Your task to perform on an android device: Open calendar and show me the third week of next month Image 0: 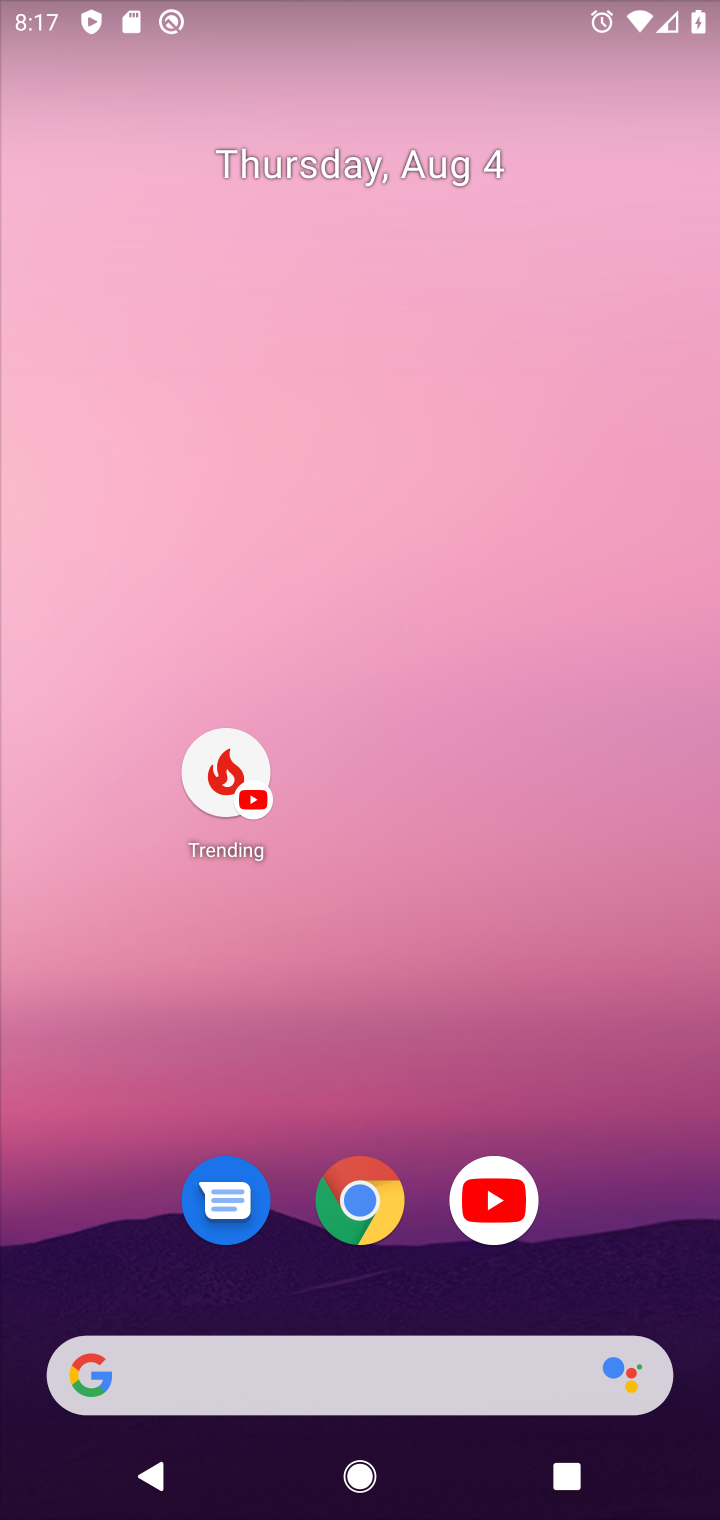
Step 0: drag from (414, 1419) to (105, 199)
Your task to perform on an android device: Open calendar and show me the third week of next month Image 1: 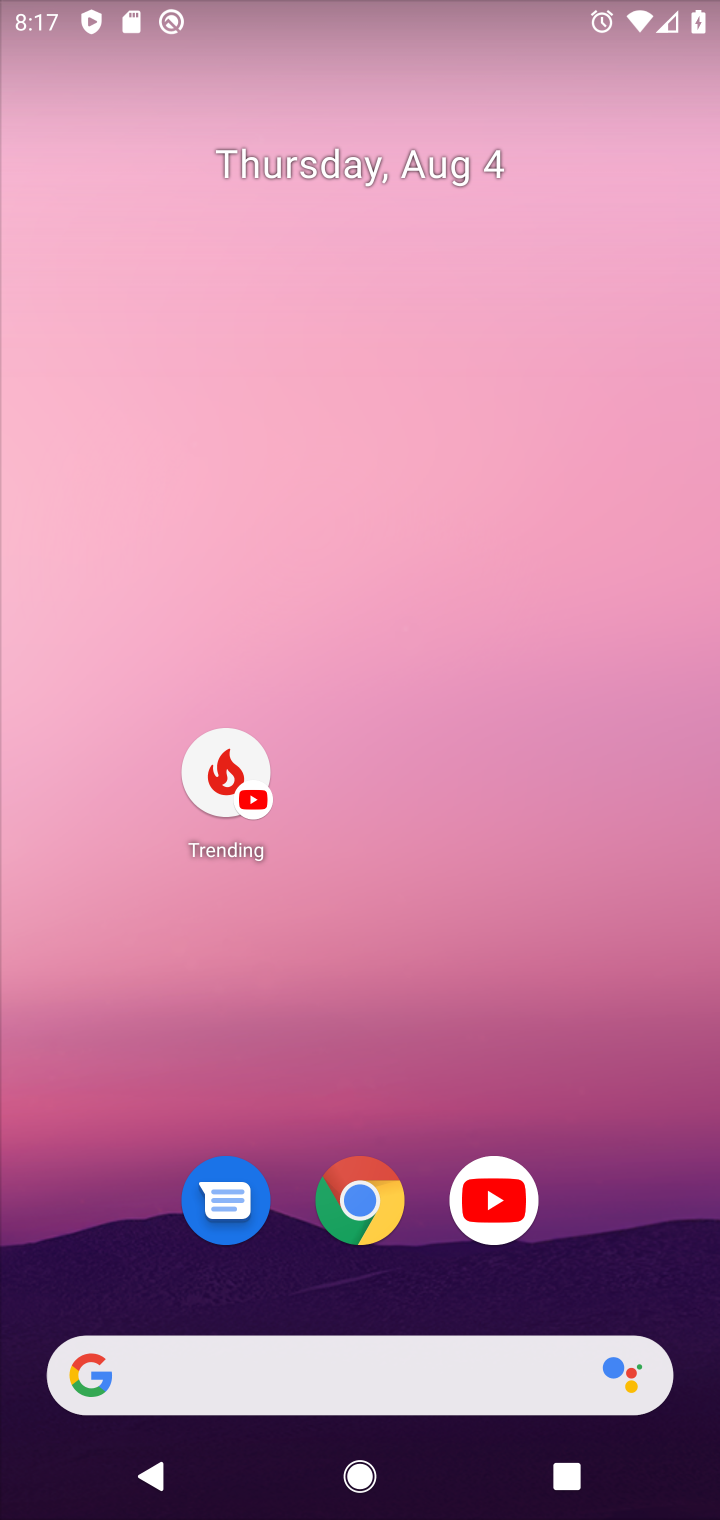
Step 1: drag from (387, 1021) to (305, 435)
Your task to perform on an android device: Open calendar and show me the third week of next month Image 2: 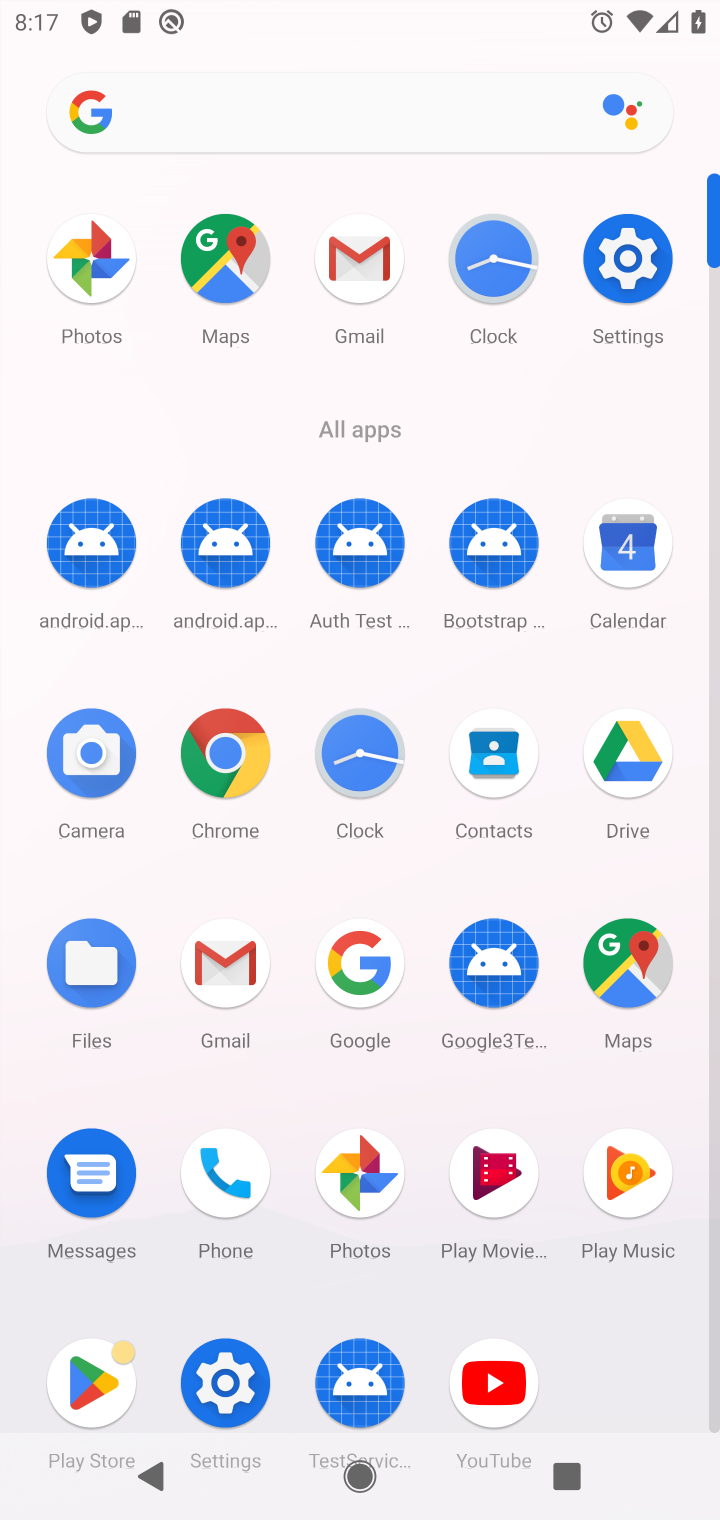
Step 2: click (622, 574)
Your task to perform on an android device: Open calendar and show me the third week of next month Image 3: 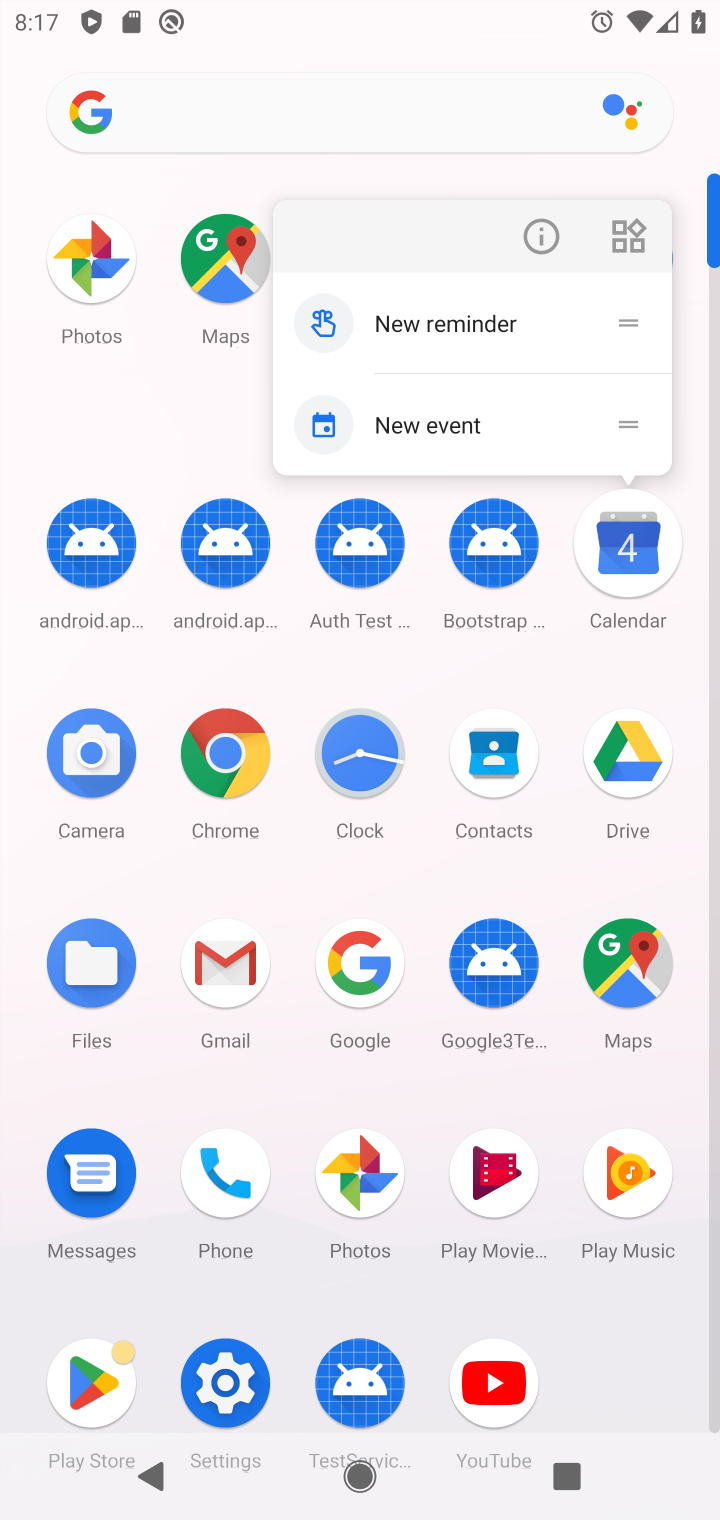
Step 3: click (624, 566)
Your task to perform on an android device: Open calendar and show me the third week of next month Image 4: 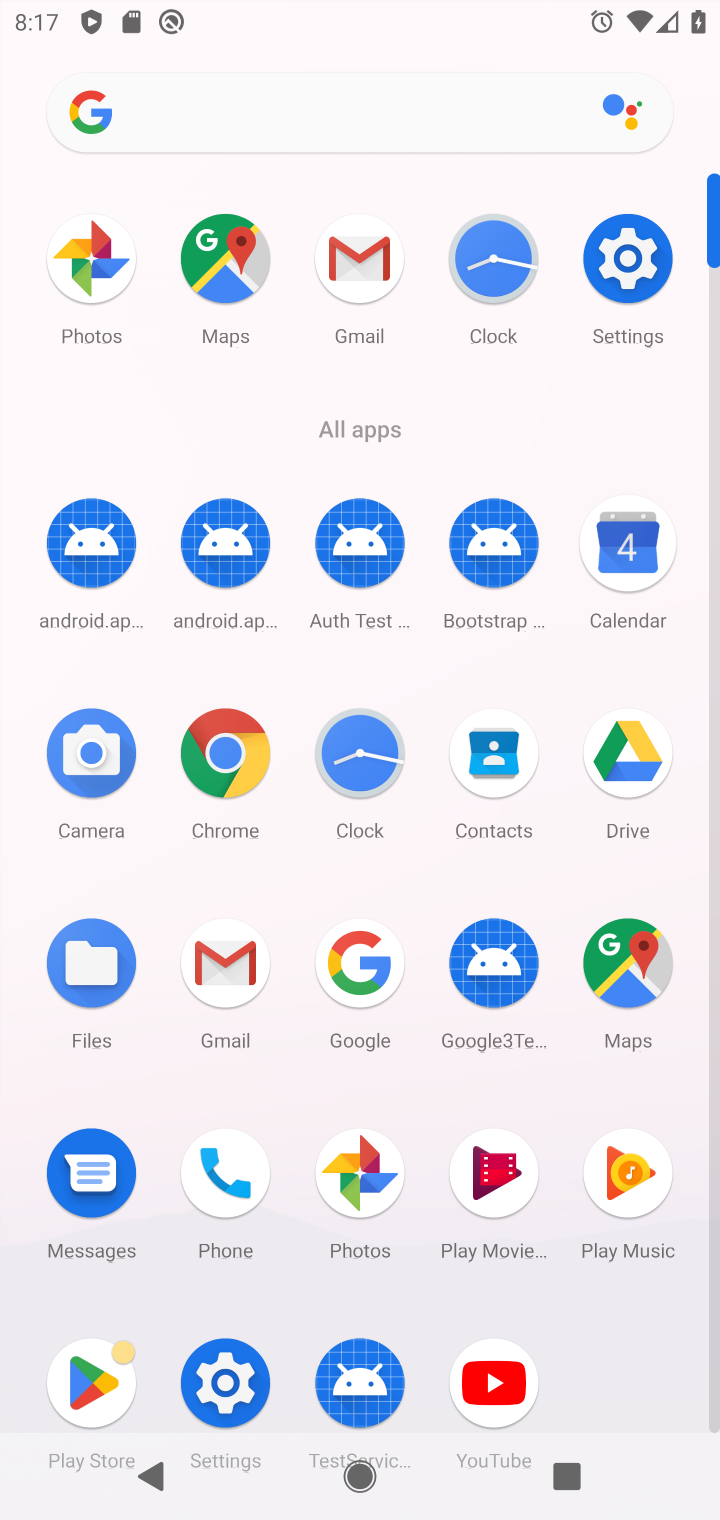
Step 4: click (414, 413)
Your task to perform on an android device: Open calendar and show me the third week of next month Image 5: 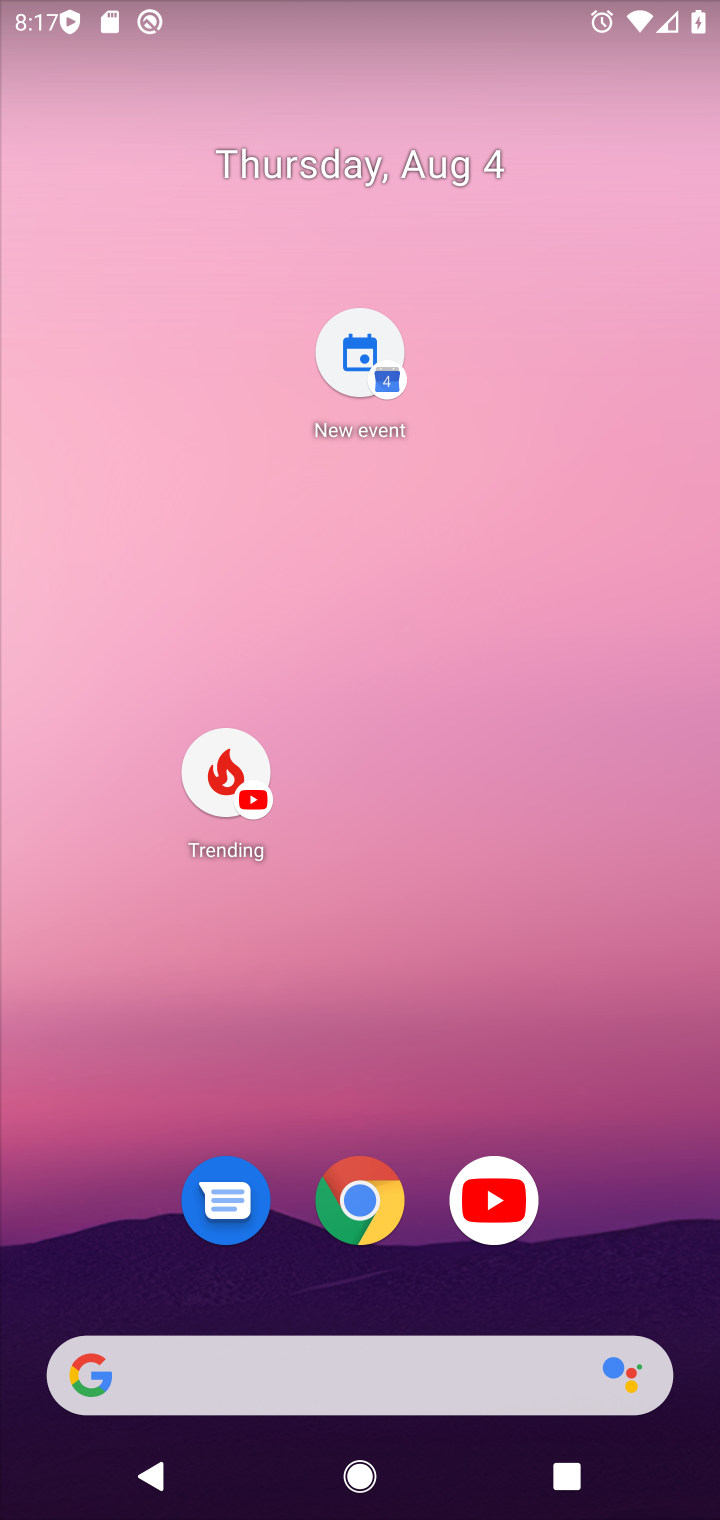
Step 5: click (44, 384)
Your task to perform on an android device: Open calendar and show me the third week of next month Image 6: 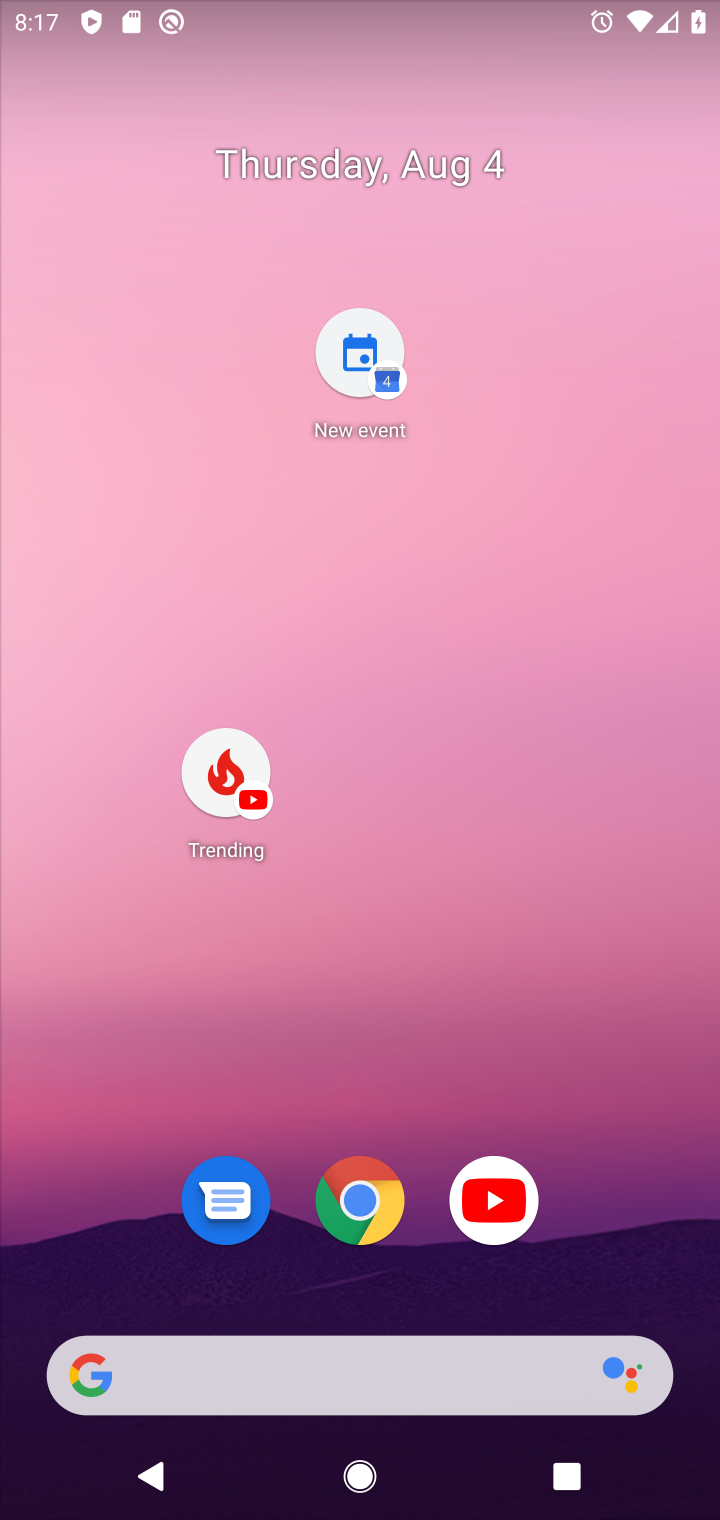
Step 6: click (459, 555)
Your task to perform on an android device: Open calendar and show me the third week of next month Image 7: 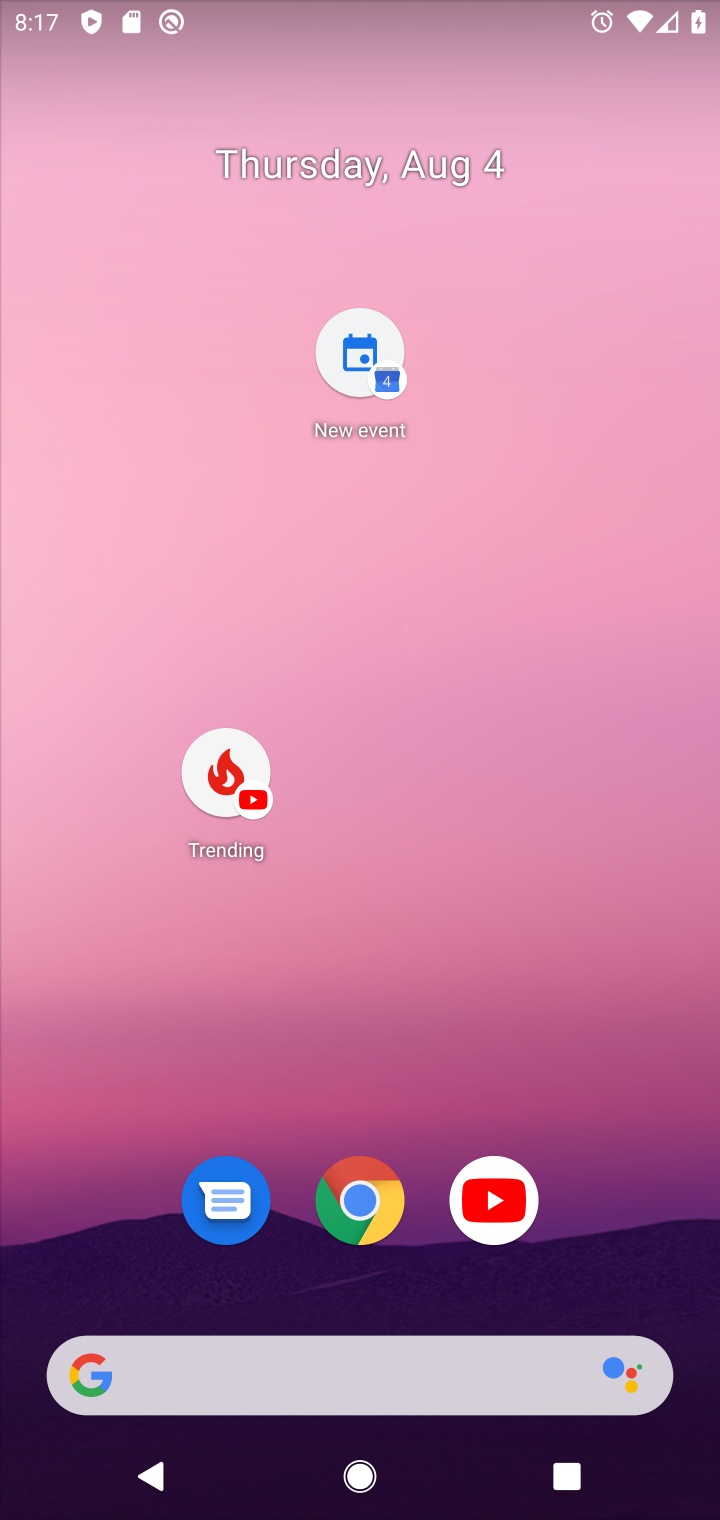
Step 7: drag from (462, 1073) to (316, 195)
Your task to perform on an android device: Open calendar and show me the third week of next month Image 8: 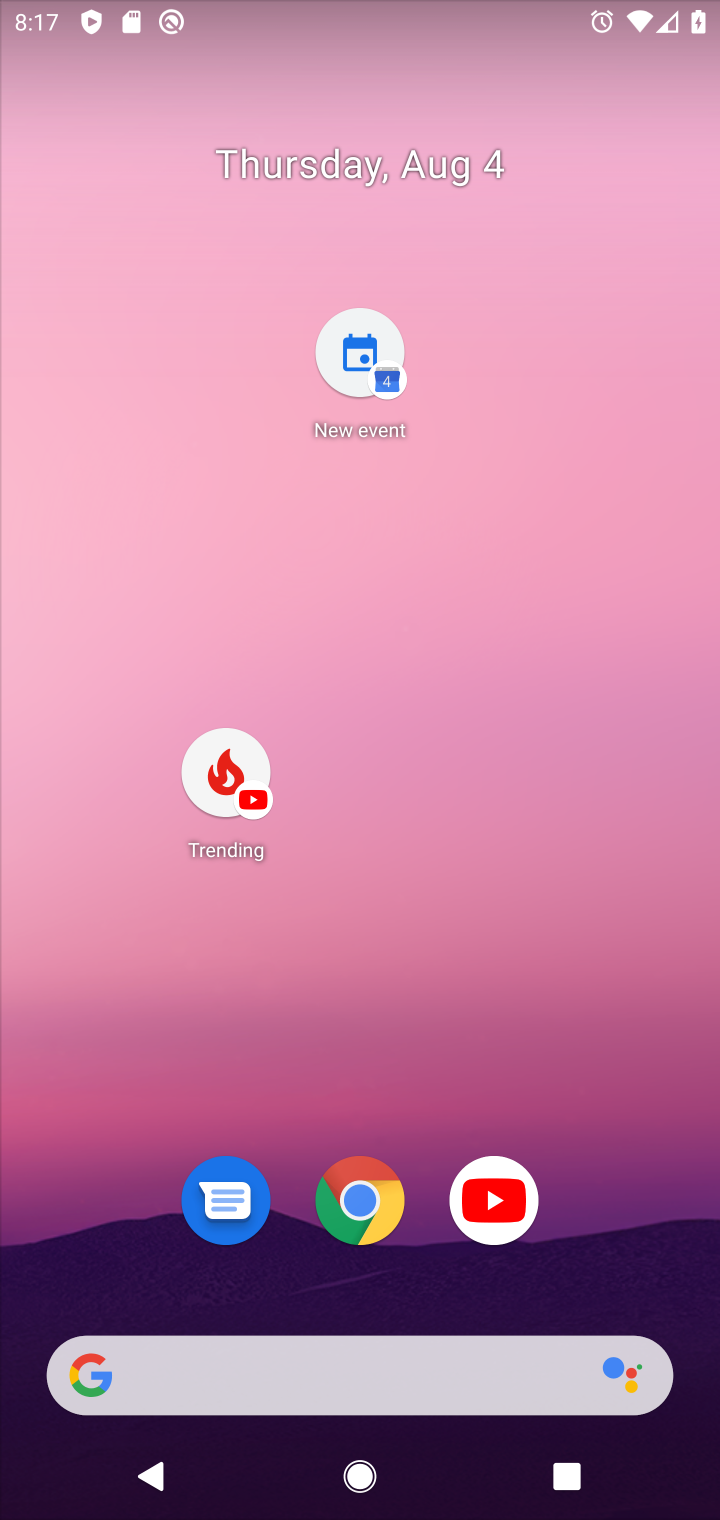
Step 8: drag from (372, 174) to (195, 298)
Your task to perform on an android device: Open calendar and show me the third week of next month Image 9: 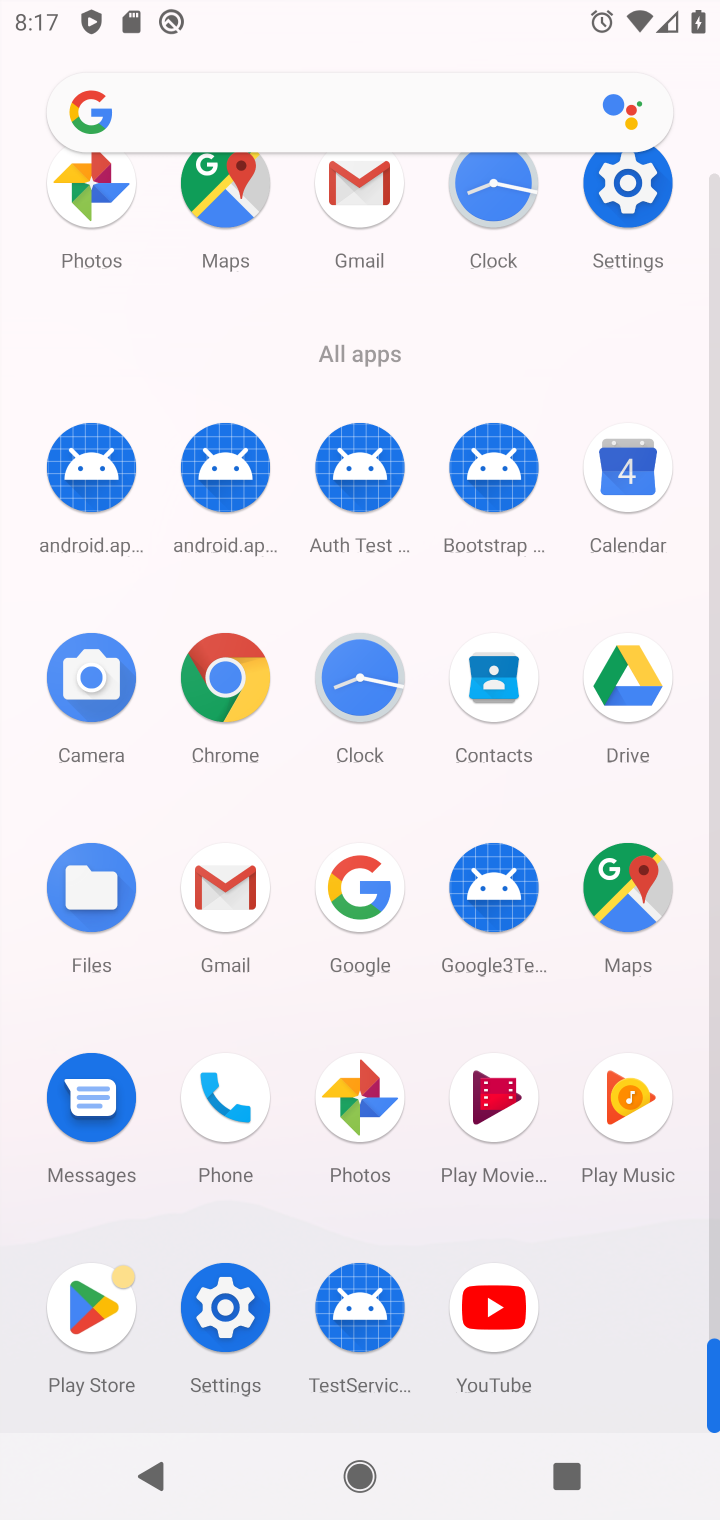
Step 9: click (626, 466)
Your task to perform on an android device: Open calendar and show me the third week of next month Image 10: 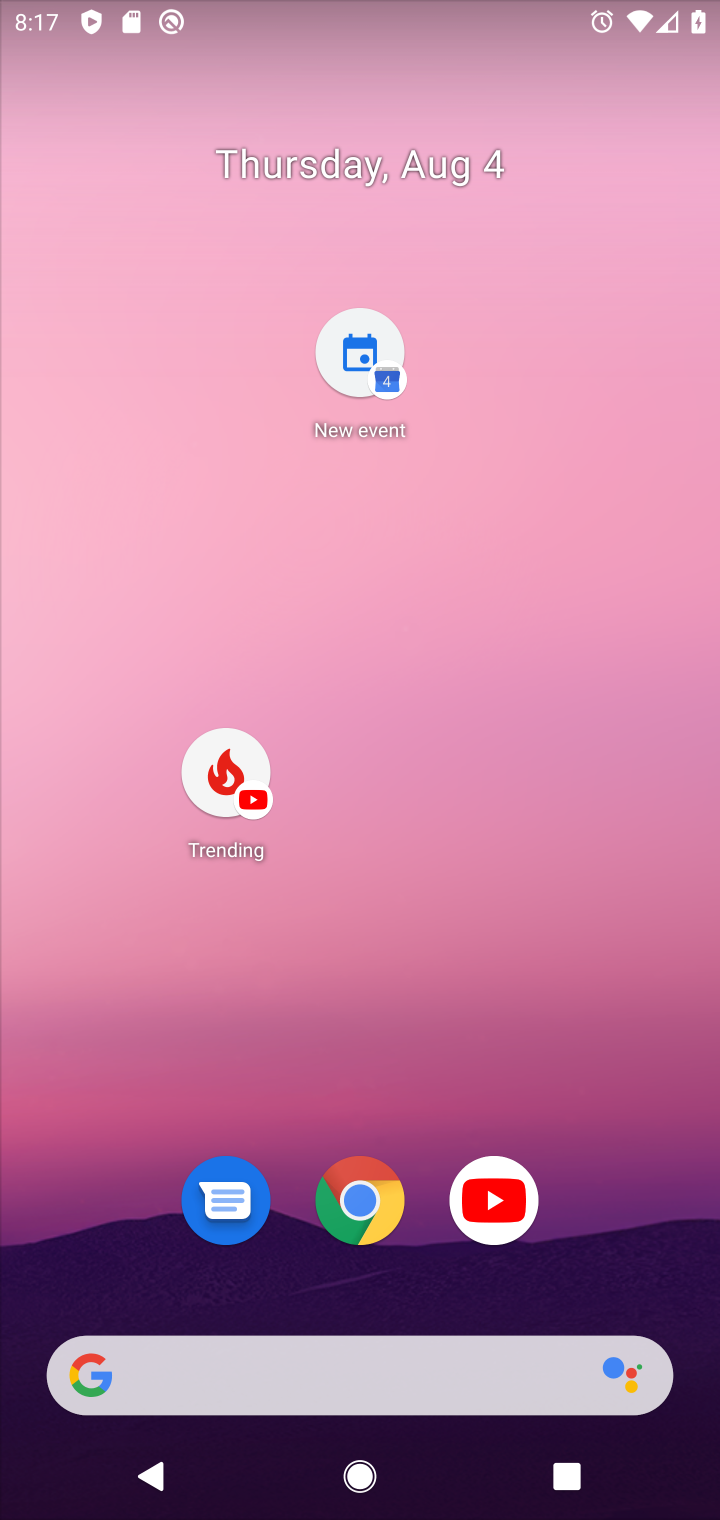
Step 10: click (639, 471)
Your task to perform on an android device: Open calendar and show me the third week of next month Image 11: 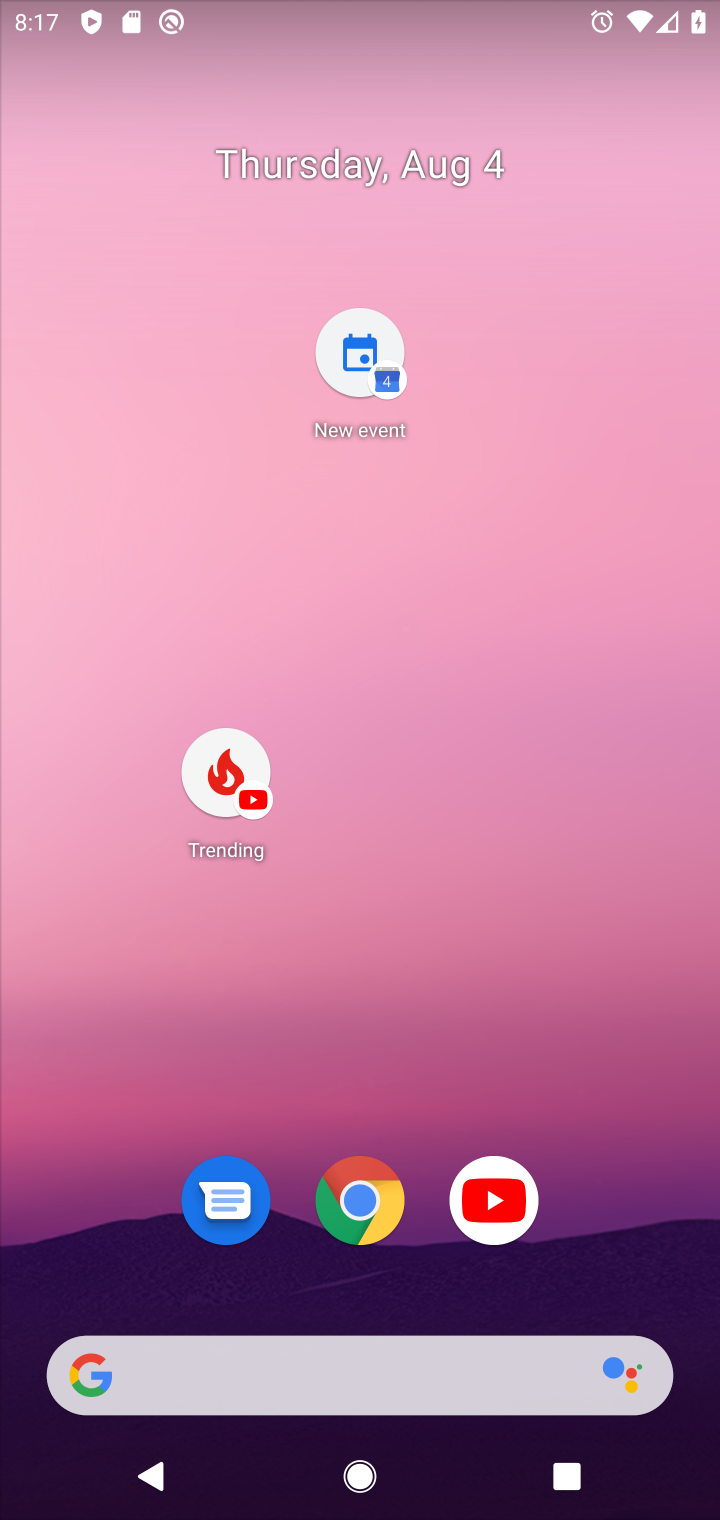
Step 11: drag from (124, 19) to (435, 383)
Your task to perform on an android device: Open calendar and show me the third week of next month Image 12: 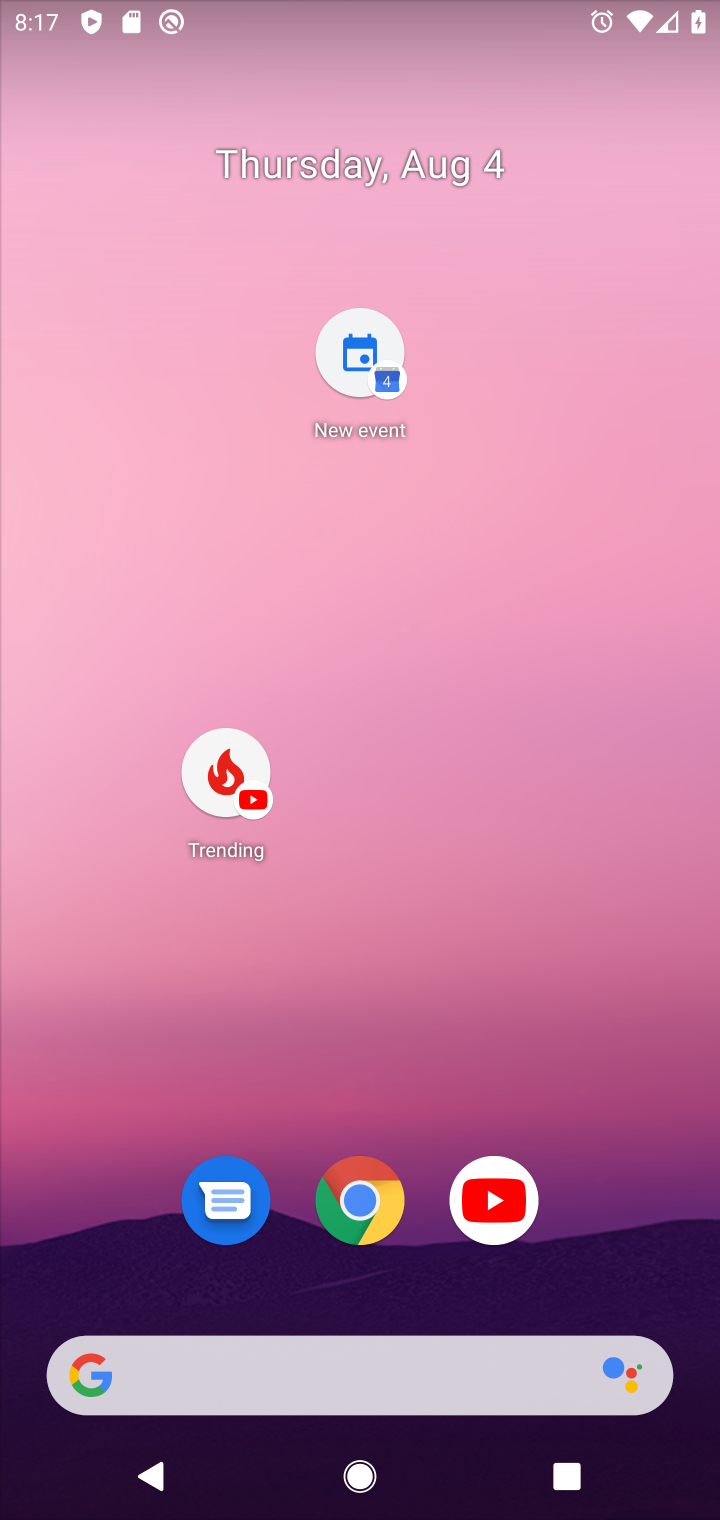
Step 12: drag from (391, 959) to (210, 210)
Your task to perform on an android device: Open calendar and show me the third week of next month Image 13: 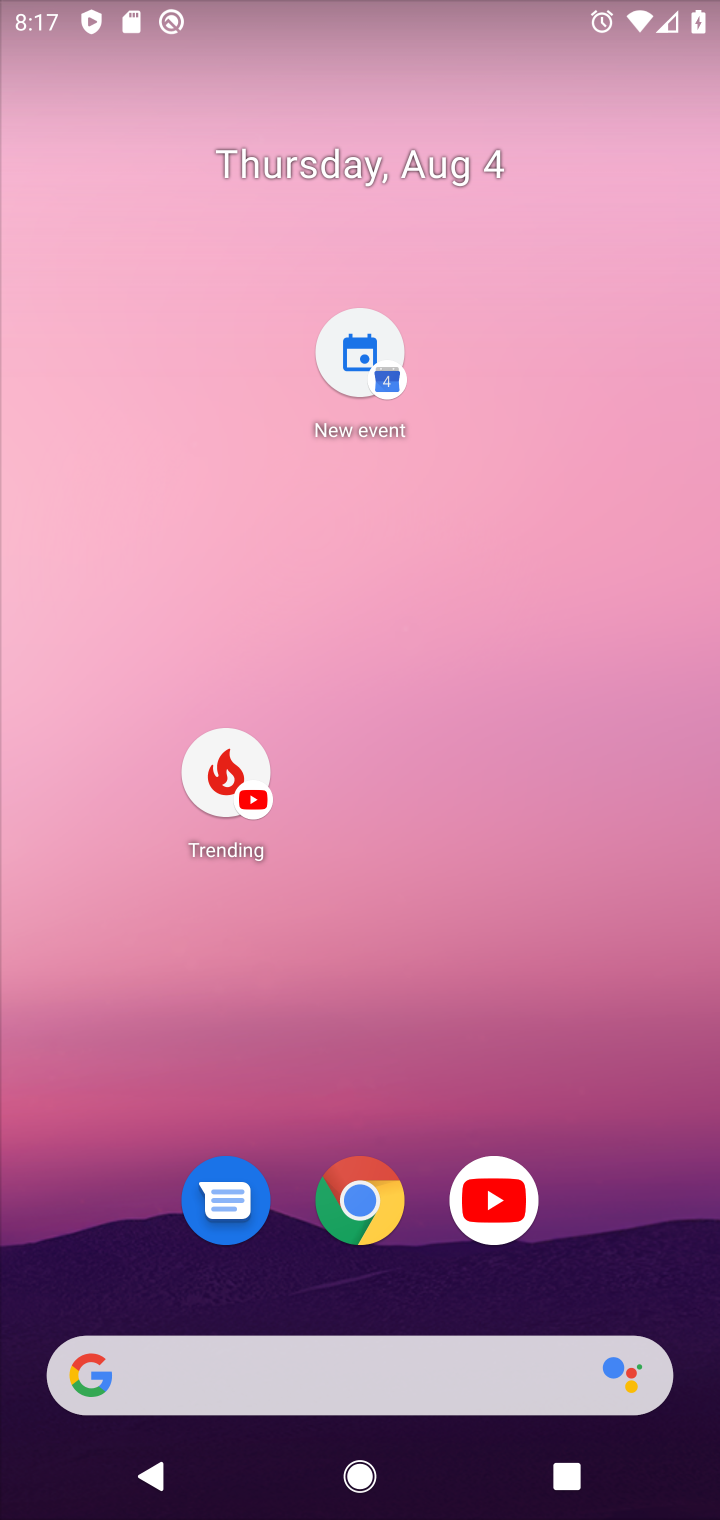
Step 13: click (299, 561)
Your task to perform on an android device: Open calendar and show me the third week of next month Image 14: 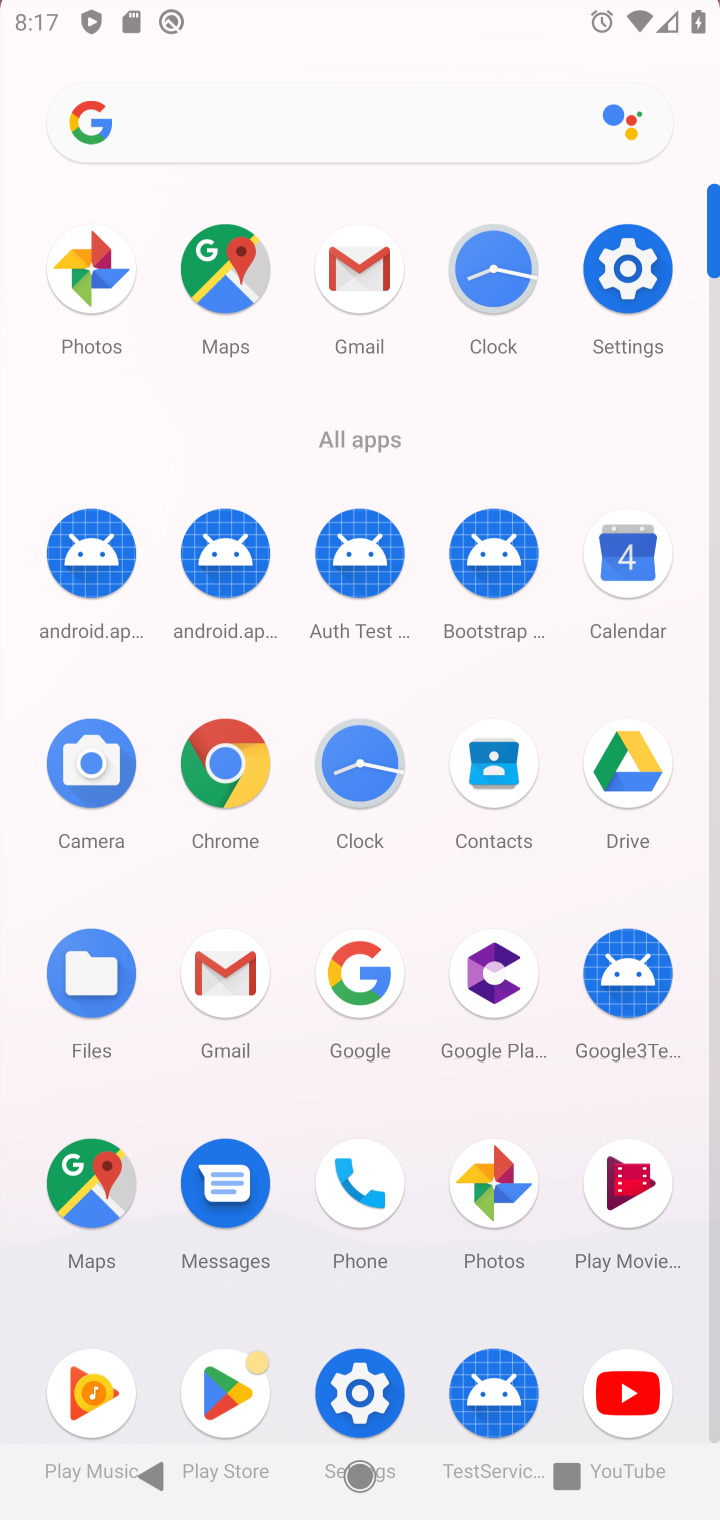
Step 14: drag from (356, 997) to (262, 313)
Your task to perform on an android device: Open calendar and show me the third week of next month Image 15: 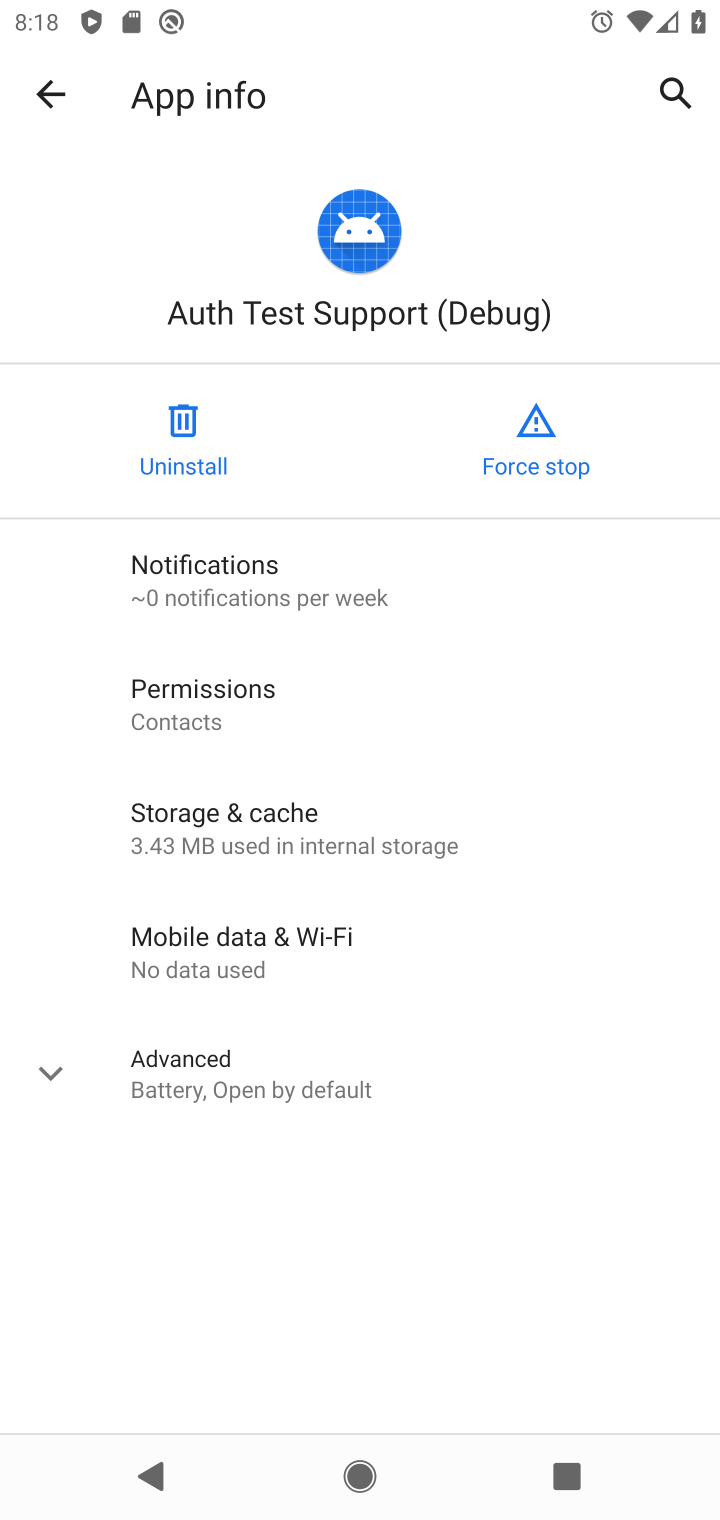
Step 15: click (52, 98)
Your task to perform on an android device: Open calendar and show me the third week of next month Image 16: 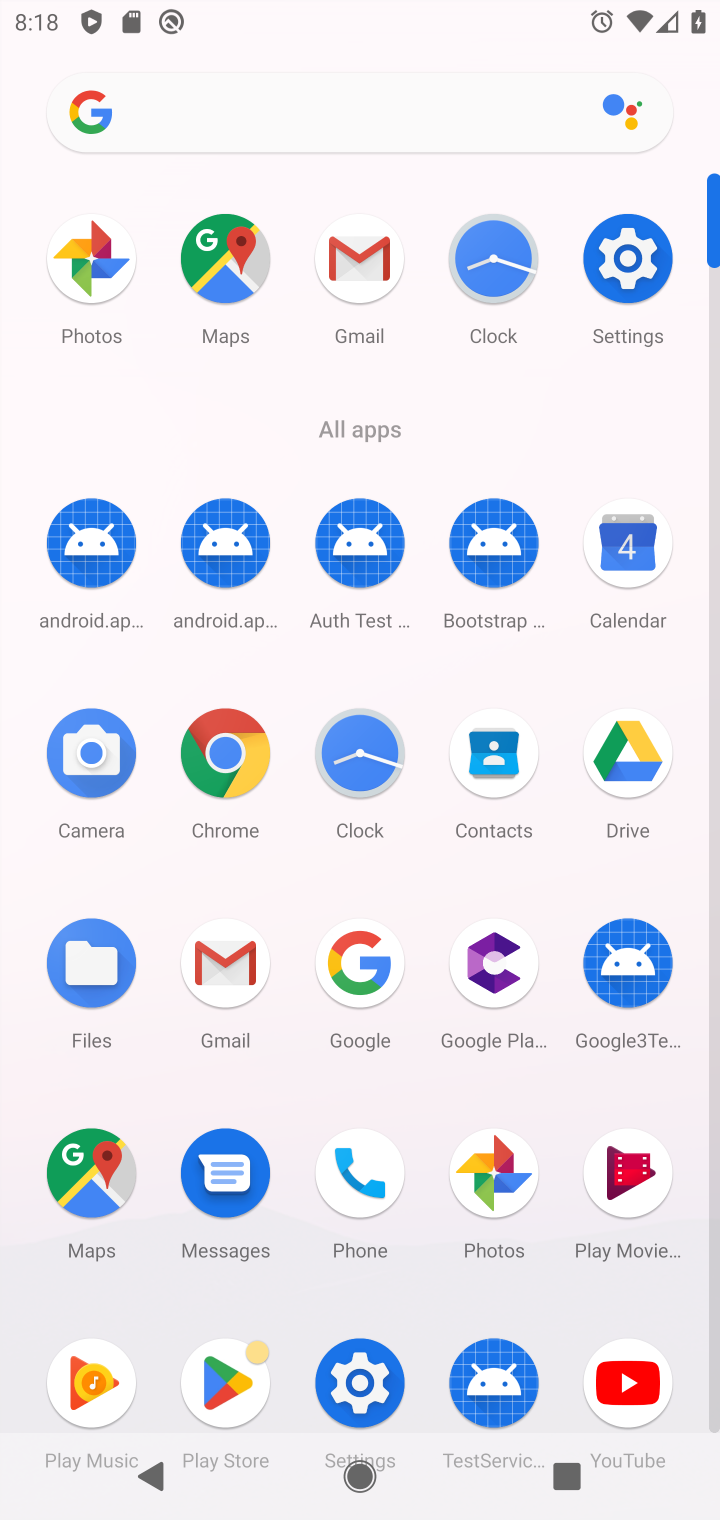
Step 16: click (617, 251)
Your task to perform on an android device: Open calendar and show me the third week of next month Image 17: 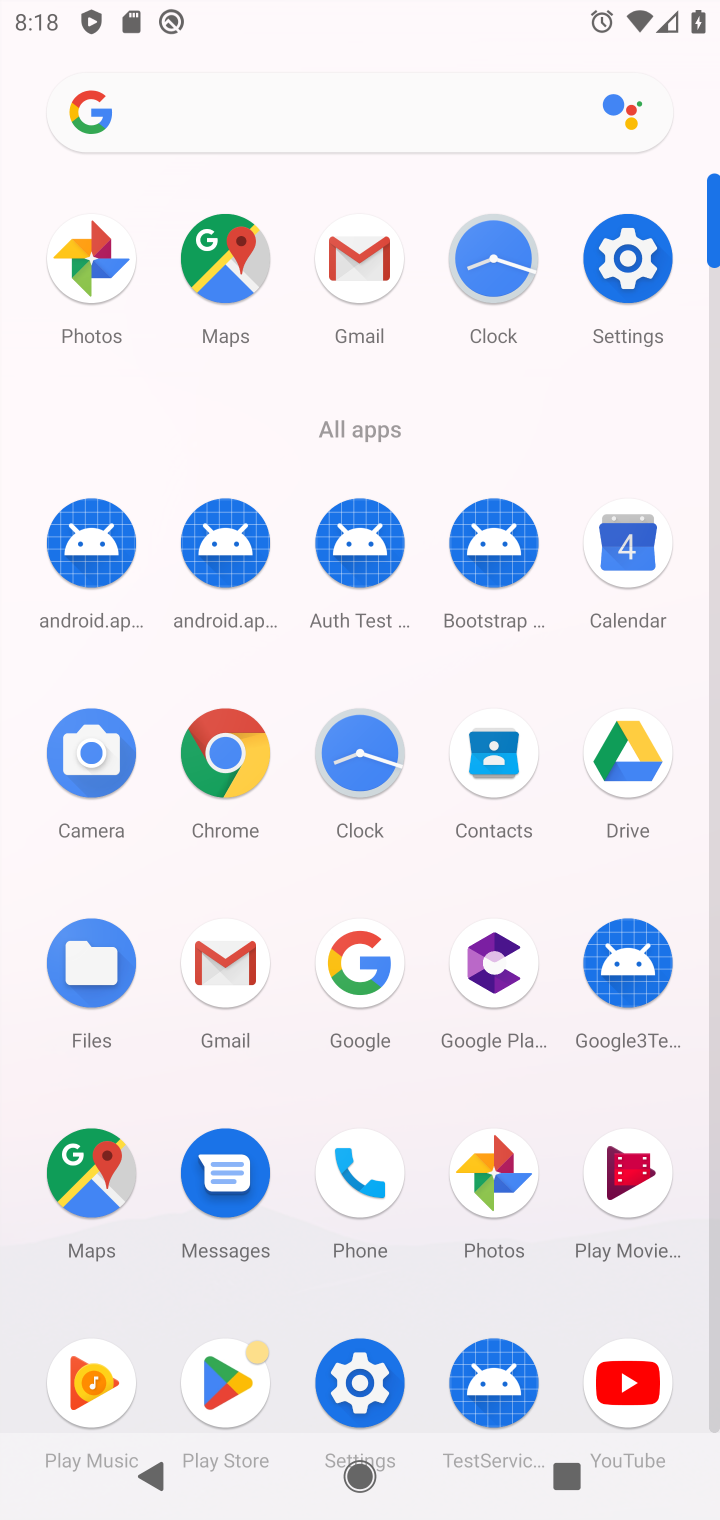
Step 17: click (617, 251)
Your task to perform on an android device: Open calendar and show me the third week of next month Image 18: 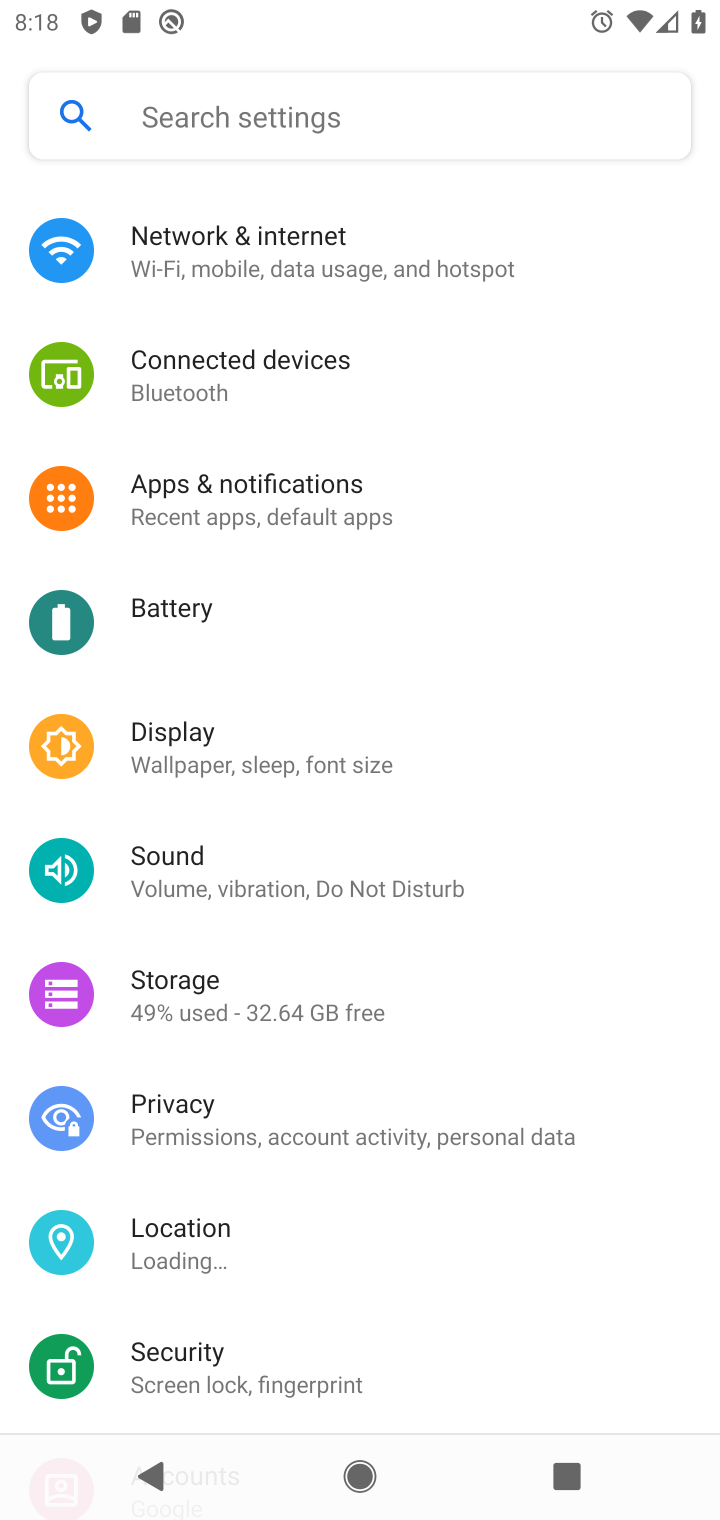
Step 18: press back button
Your task to perform on an android device: Open calendar and show me the third week of next month Image 19: 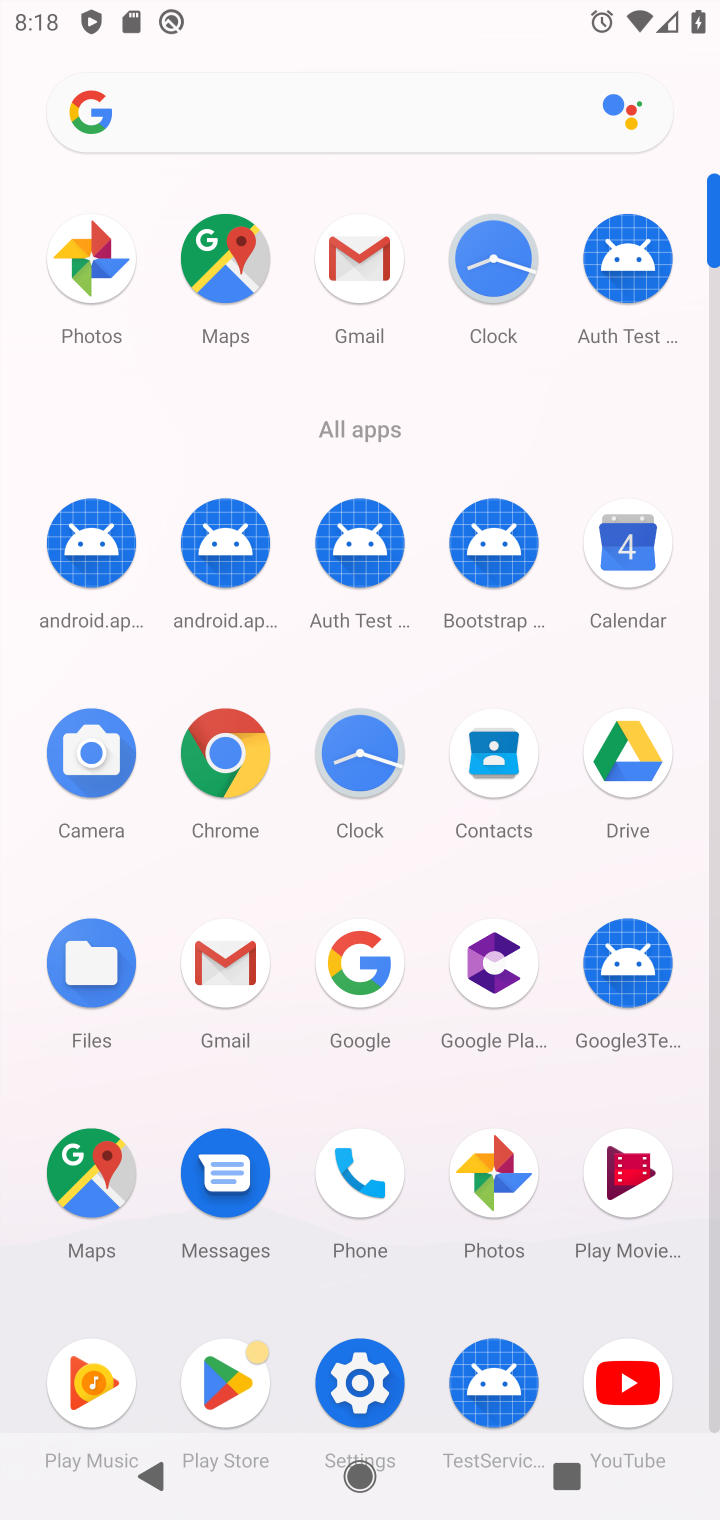
Step 19: click (624, 550)
Your task to perform on an android device: Open calendar and show me the third week of next month Image 20: 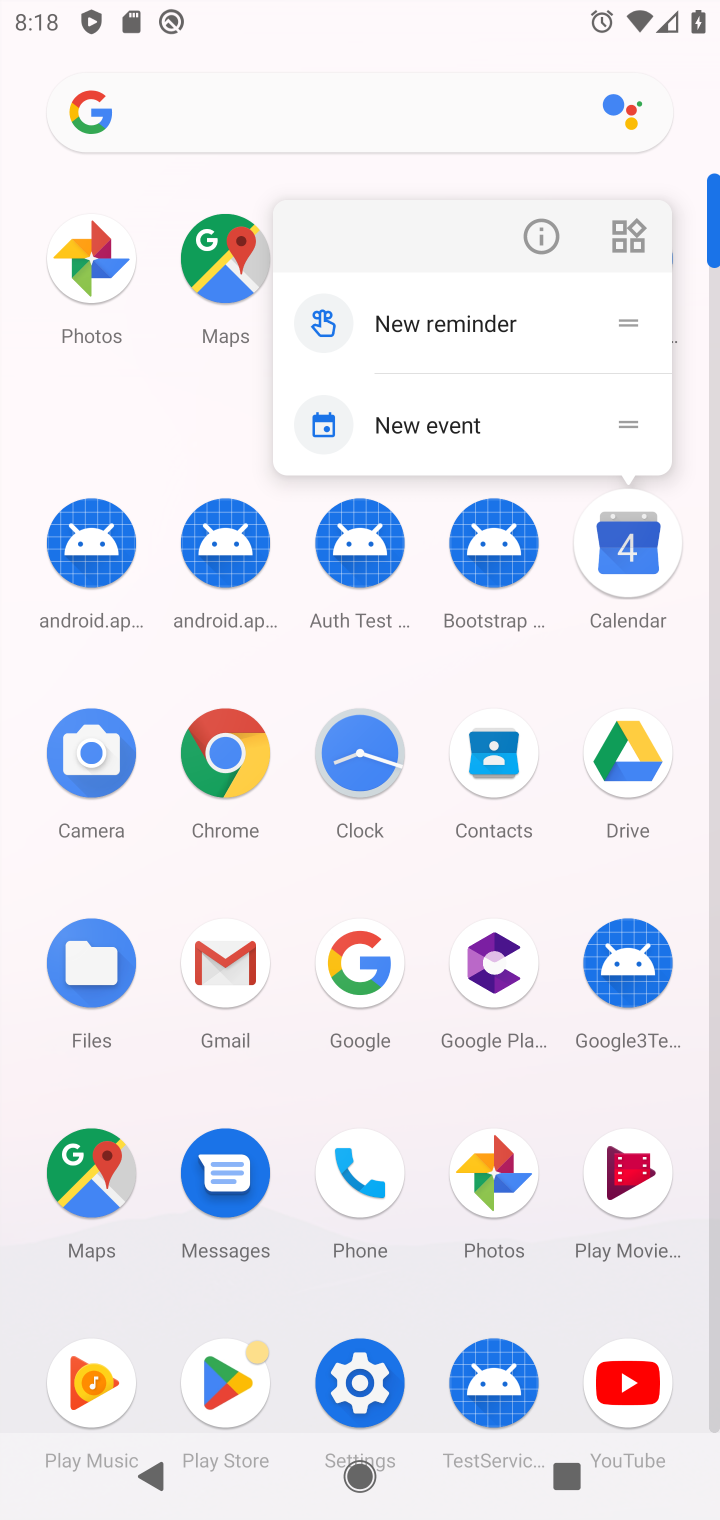
Step 20: click (622, 549)
Your task to perform on an android device: Open calendar and show me the third week of next month Image 21: 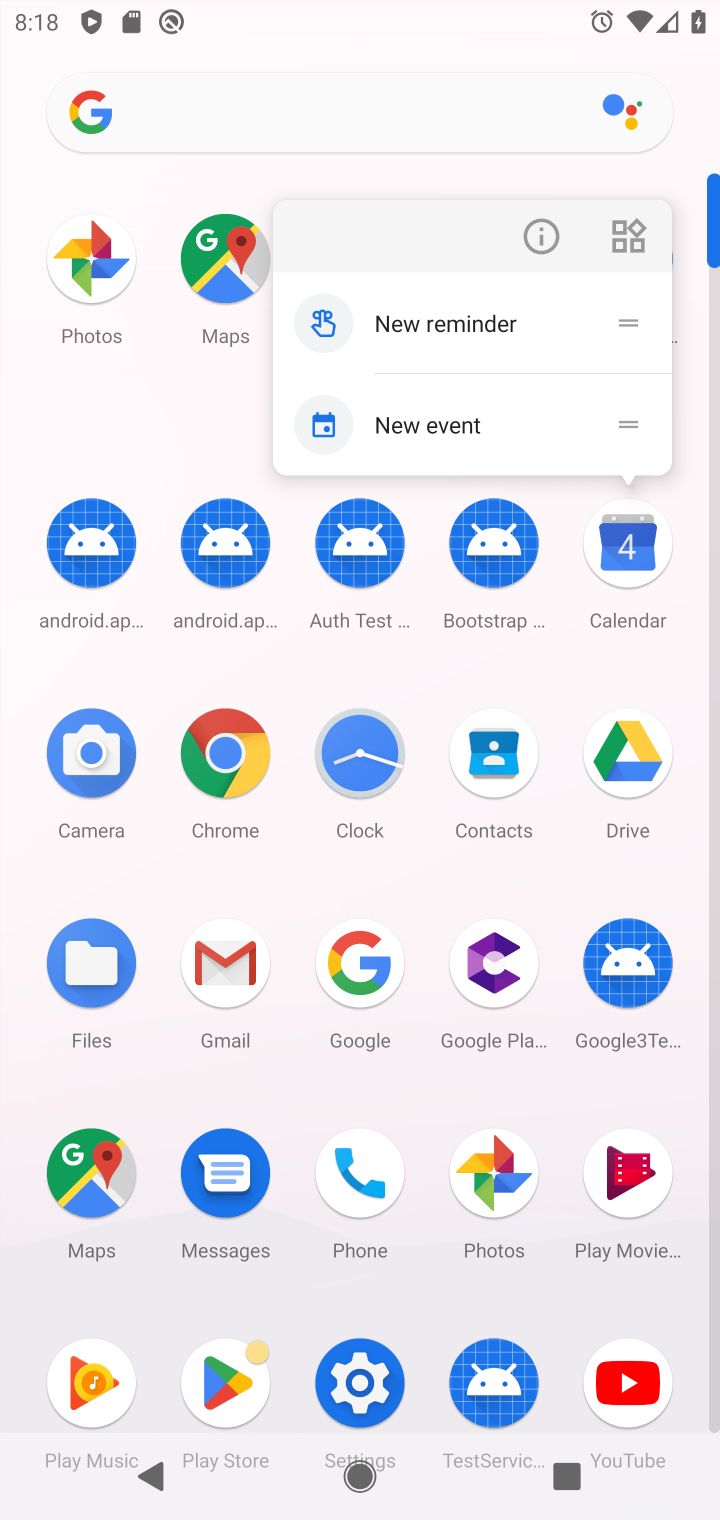
Step 21: click (442, 425)
Your task to perform on an android device: Open calendar and show me the third week of next month Image 22: 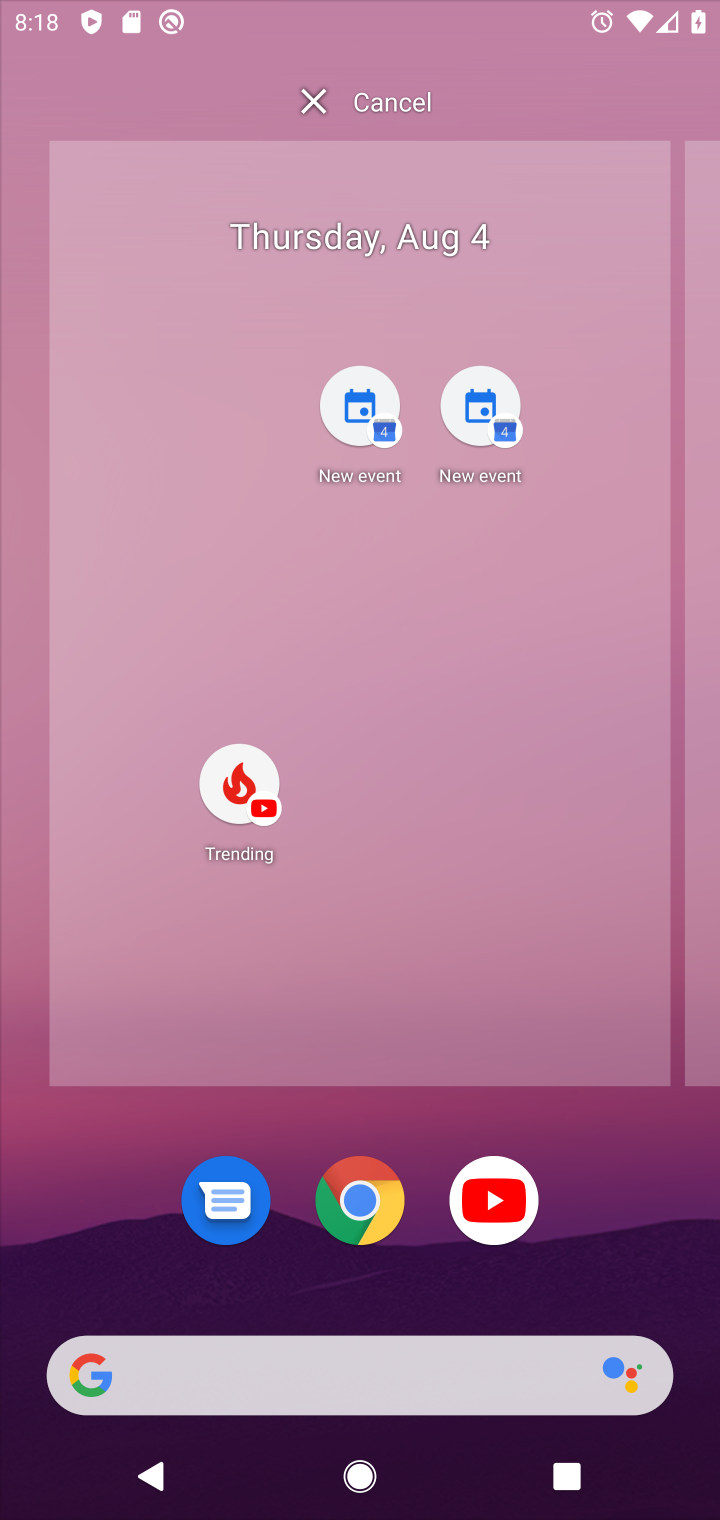
Step 22: drag from (457, 1121) to (440, 166)
Your task to perform on an android device: Open calendar and show me the third week of next month Image 23: 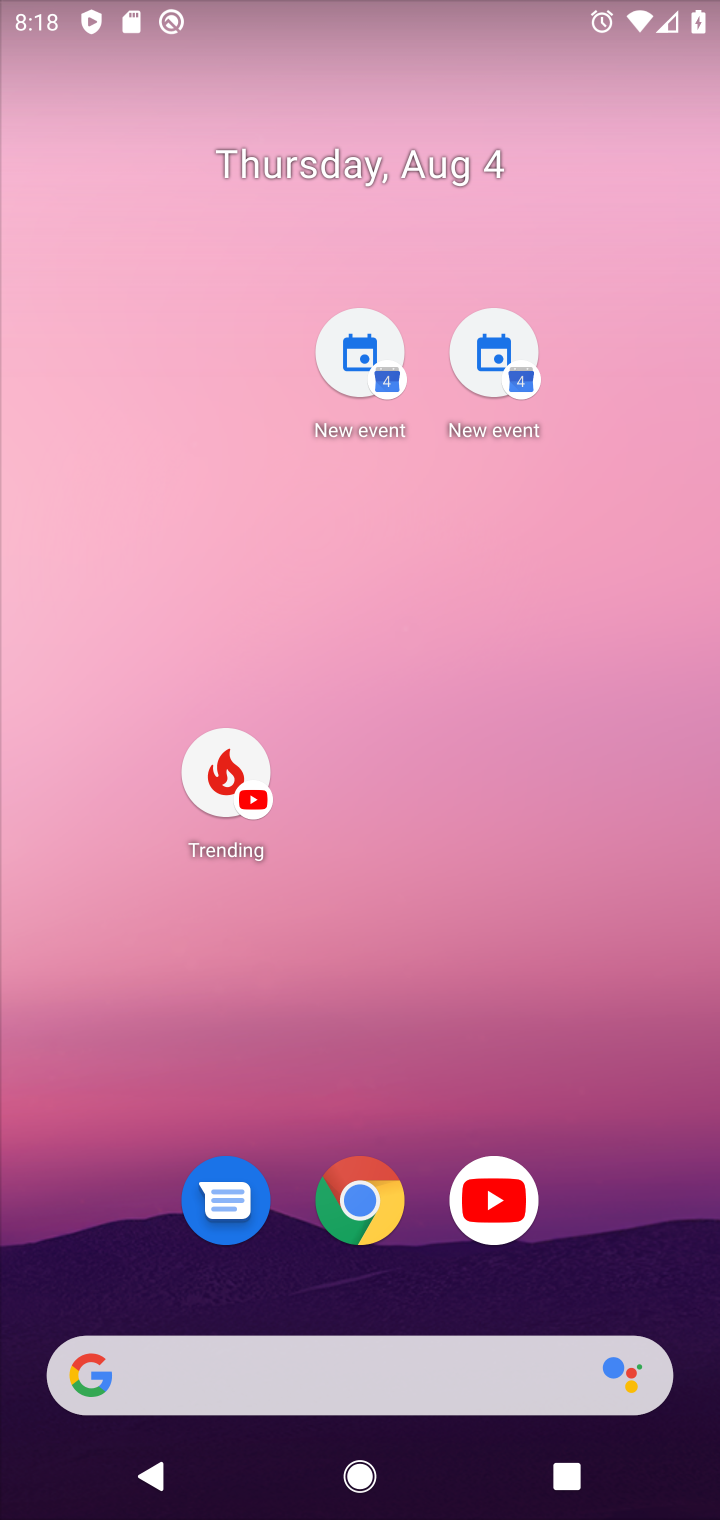
Step 23: drag from (450, 464) to (450, 126)
Your task to perform on an android device: Open calendar and show me the third week of next month Image 24: 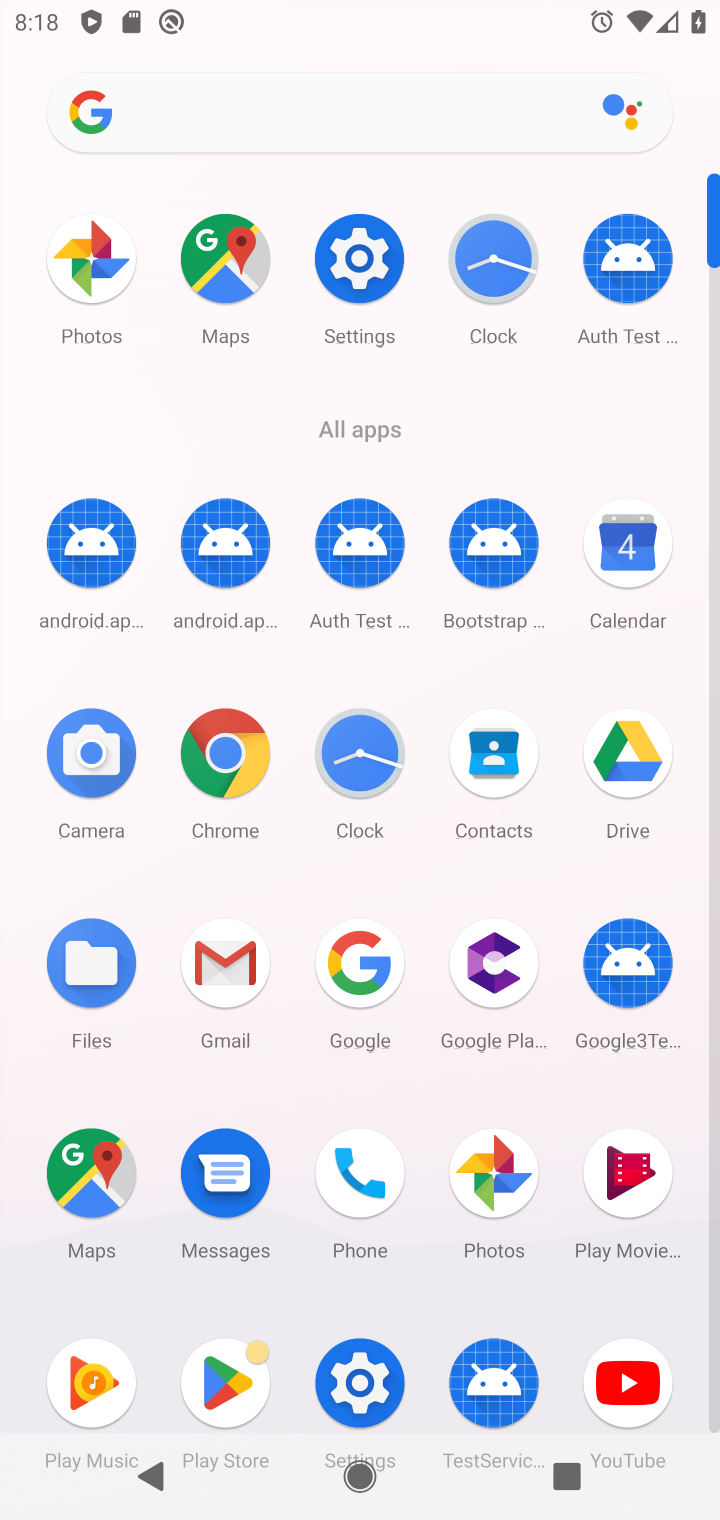
Step 24: click (495, 366)
Your task to perform on an android device: Open calendar and show me the third week of next month Image 25: 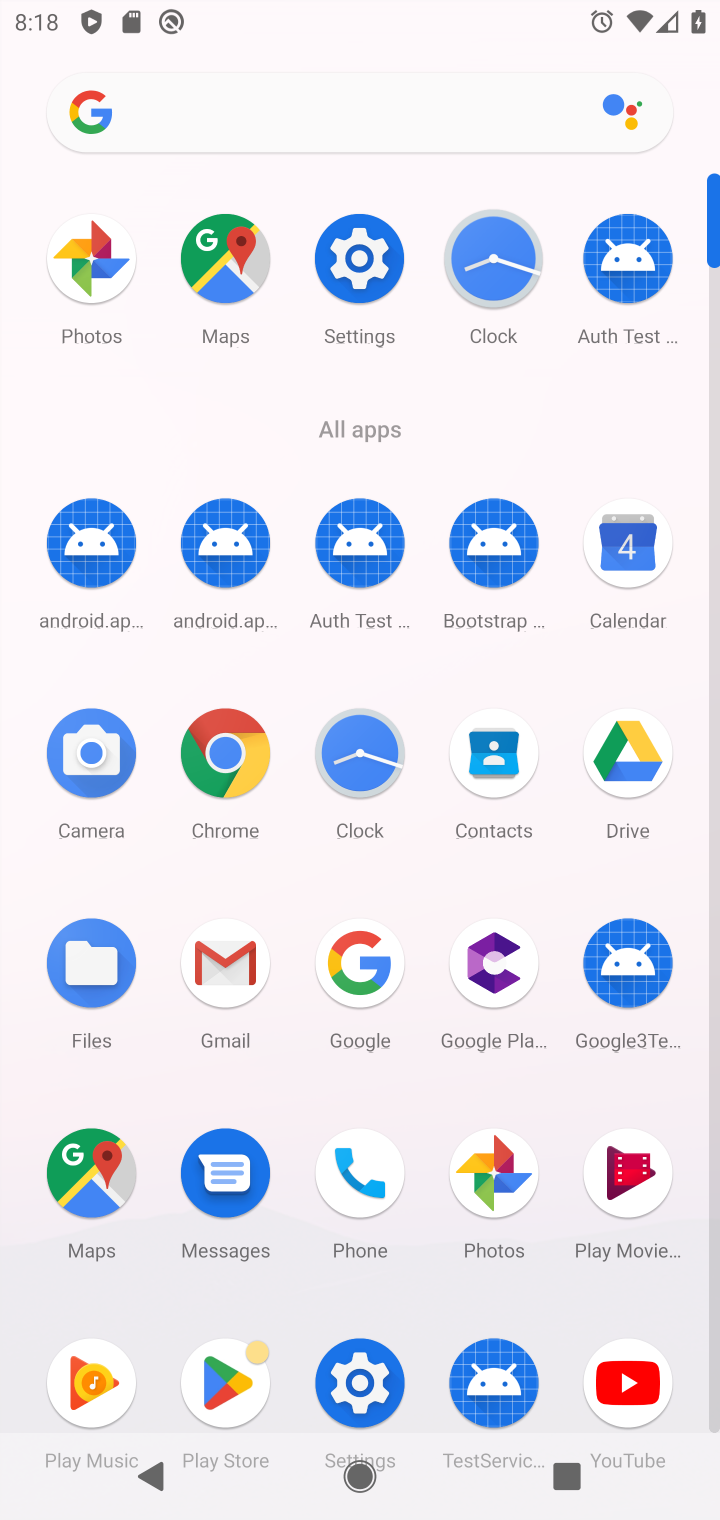
Step 25: click (636, 537)
Your task to perform on an android device: Open calendar and show me the third week of next month Image 26: 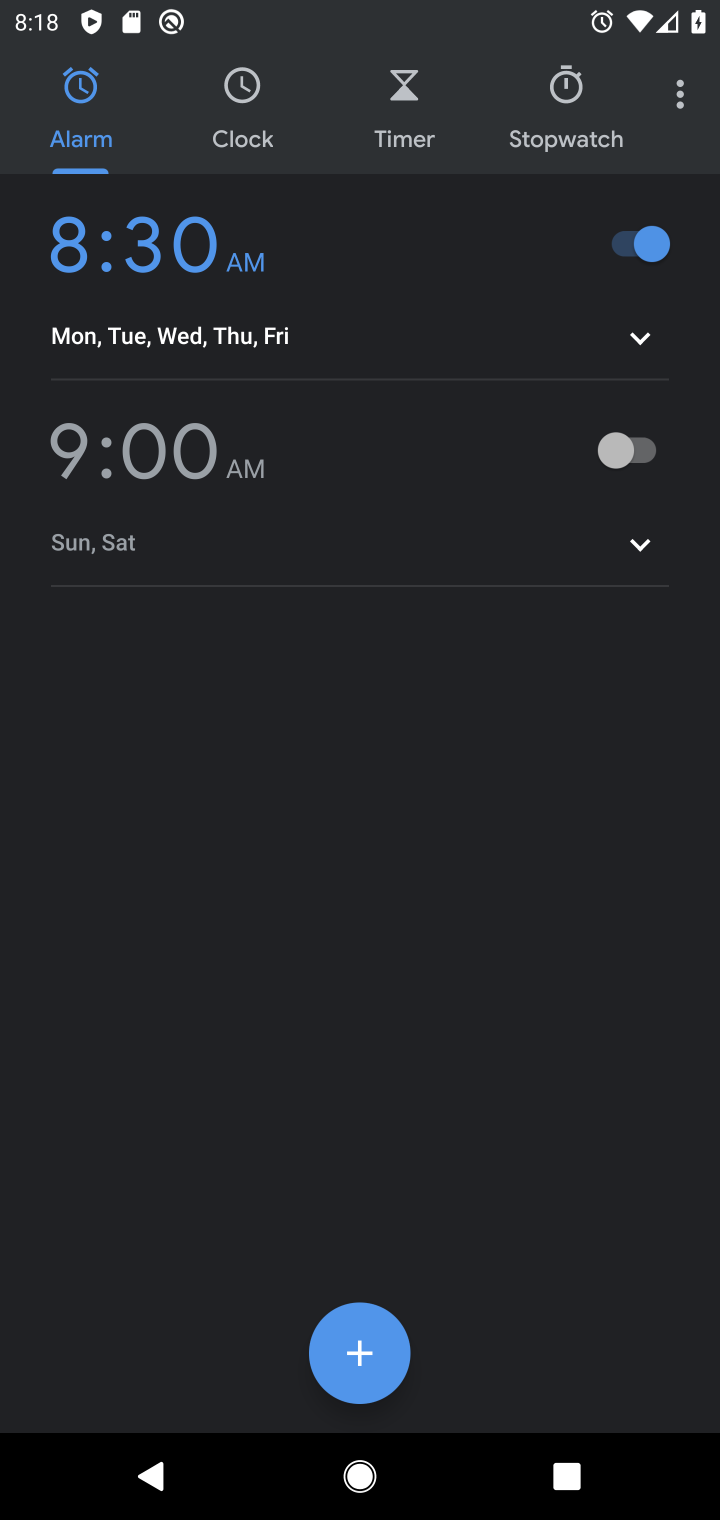
Step 26: press back button
Your task to perform on an android device: Open calendar and show me the third week of next month Image 27: 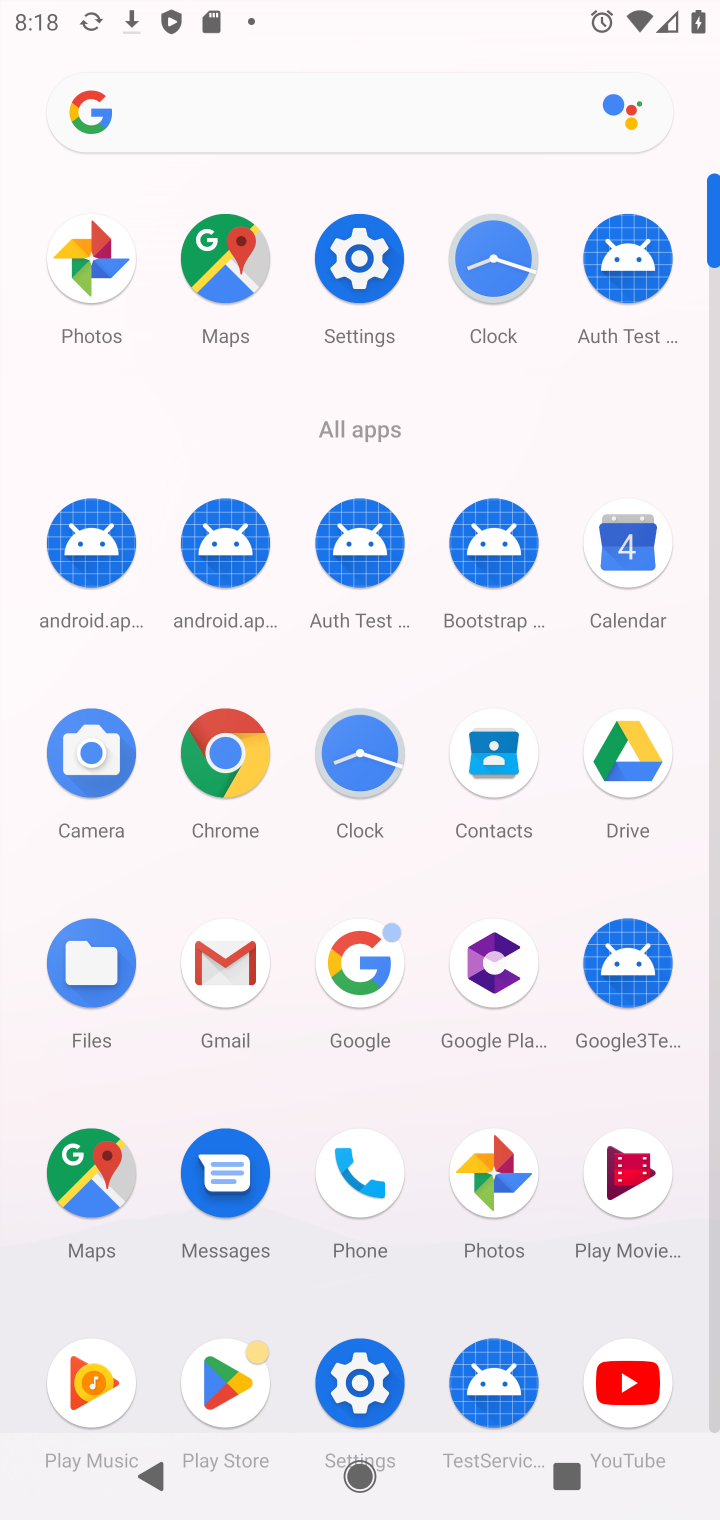
Step 27: click (633, 561)
Your task to perform on an android device: Open calendar and show me the third week of next month Image 28: 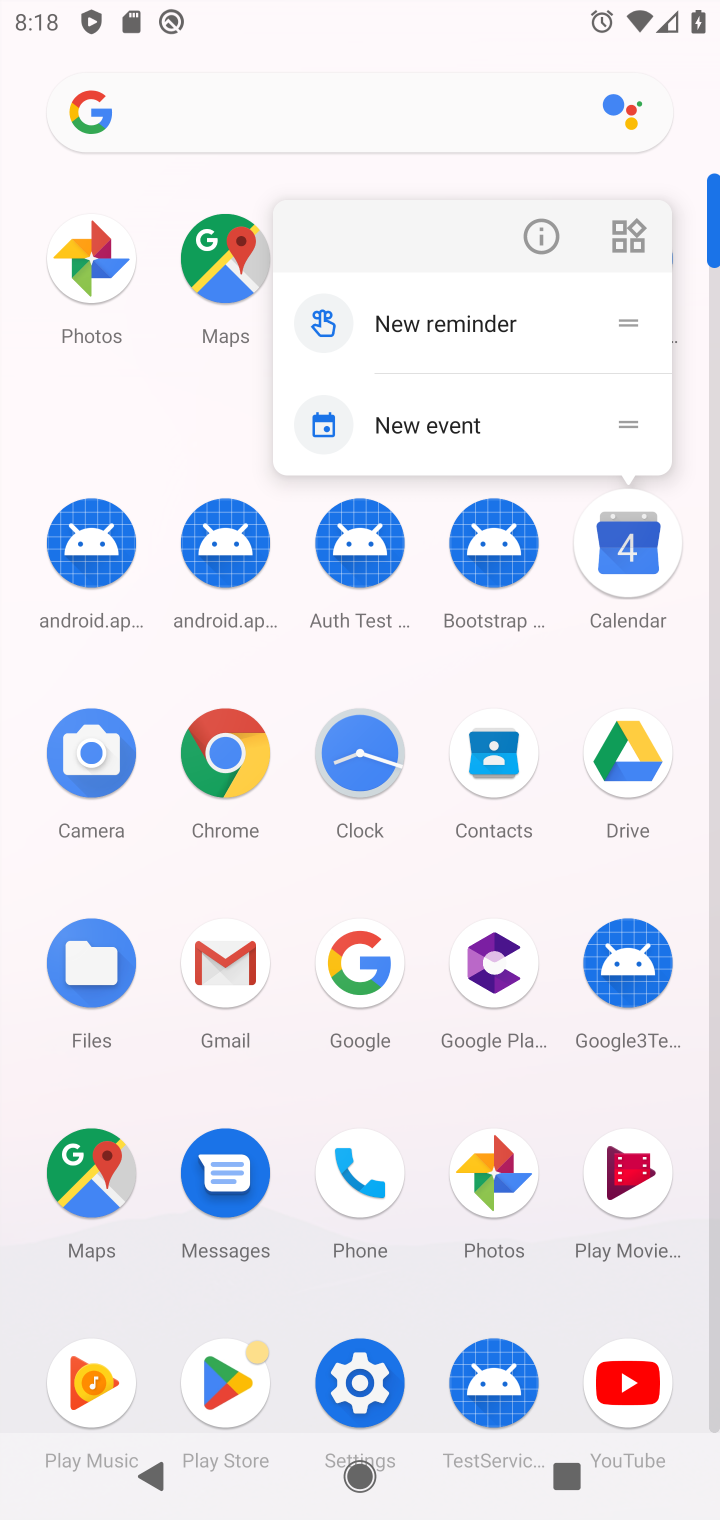
Step 28: click (646, 568)
Your task to perform on an android device: Open calendar and show me the third week of next month Image 29: 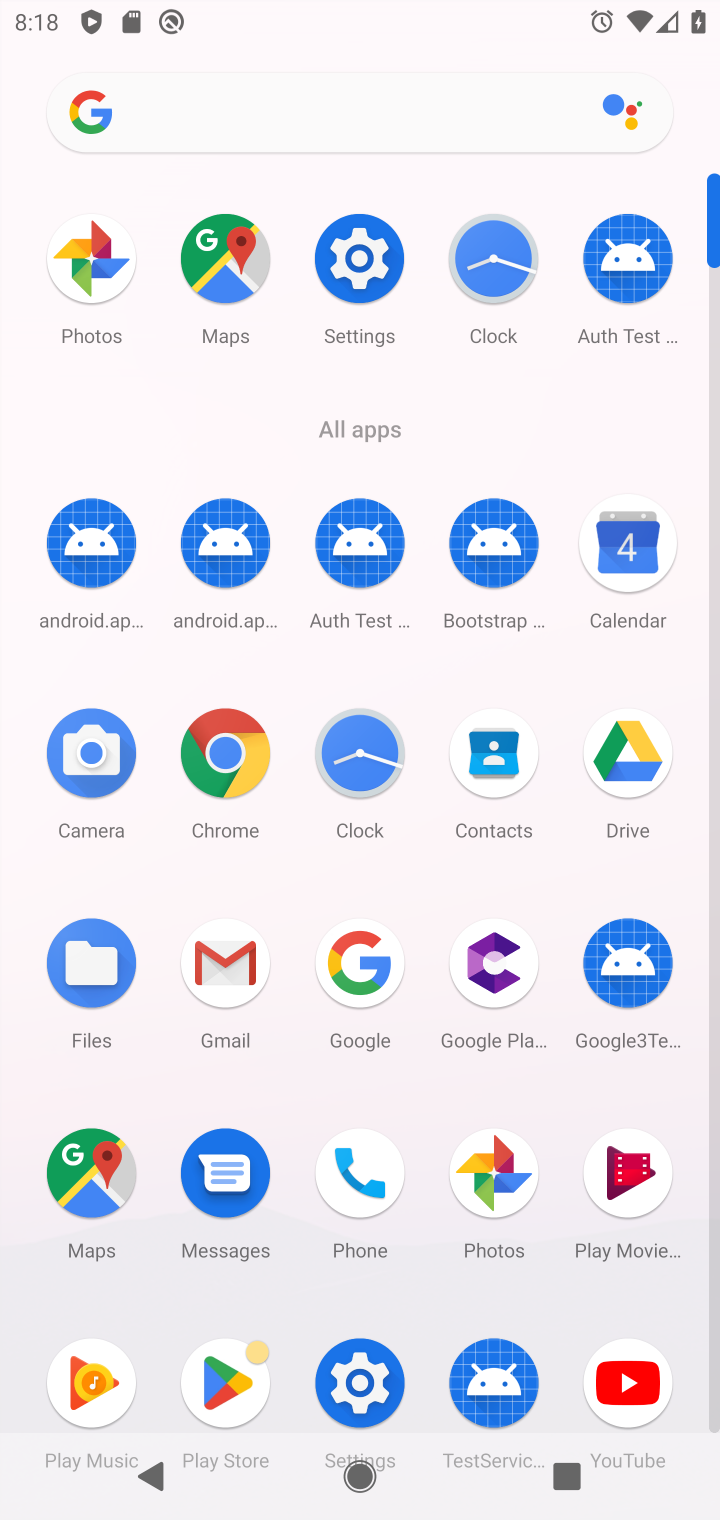
Step 29: click (640, 571)
Your task to perform on an android device: Open calendar and show me the third week of next month Image 30: 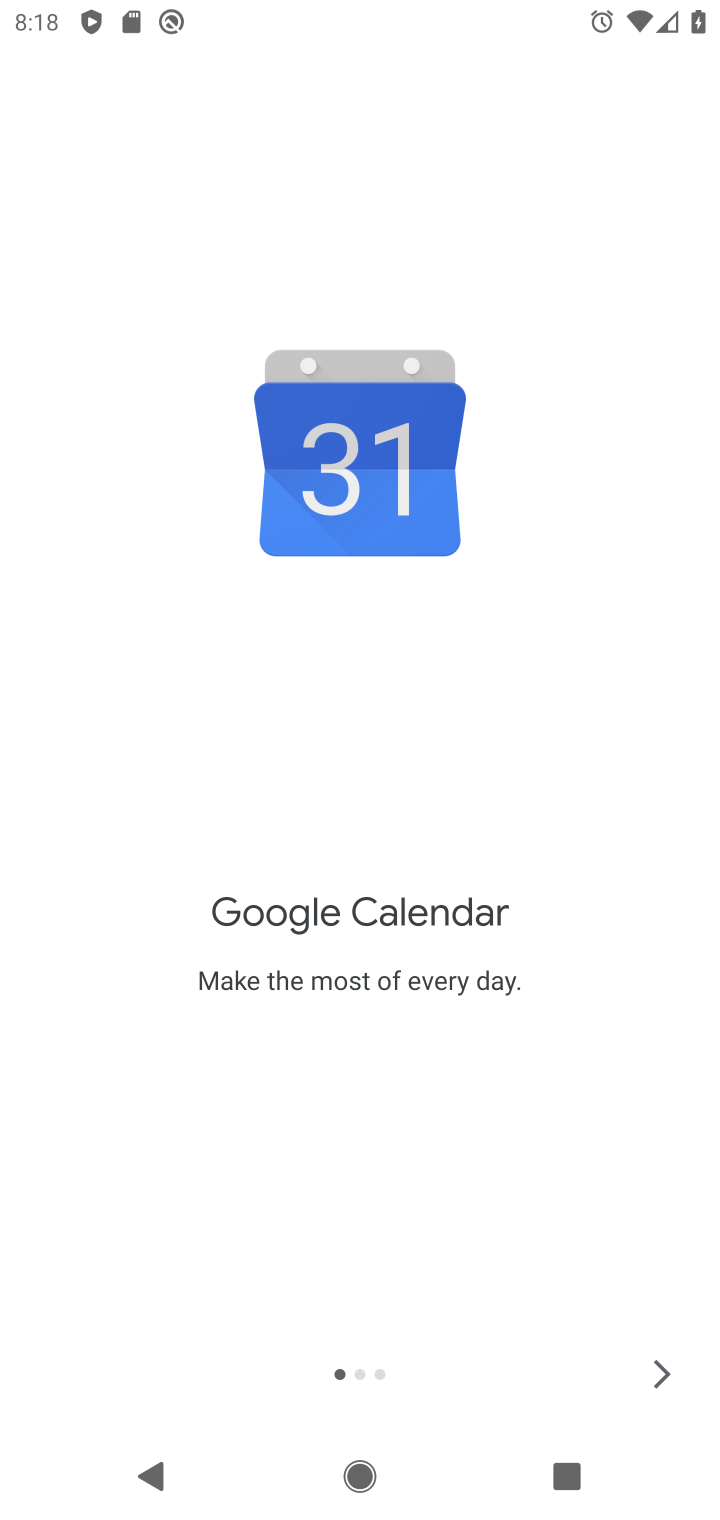
Step 30: click (653, 1362)
Your task to perform on an android device: Open calendar and show me the third week of next month Image 31: 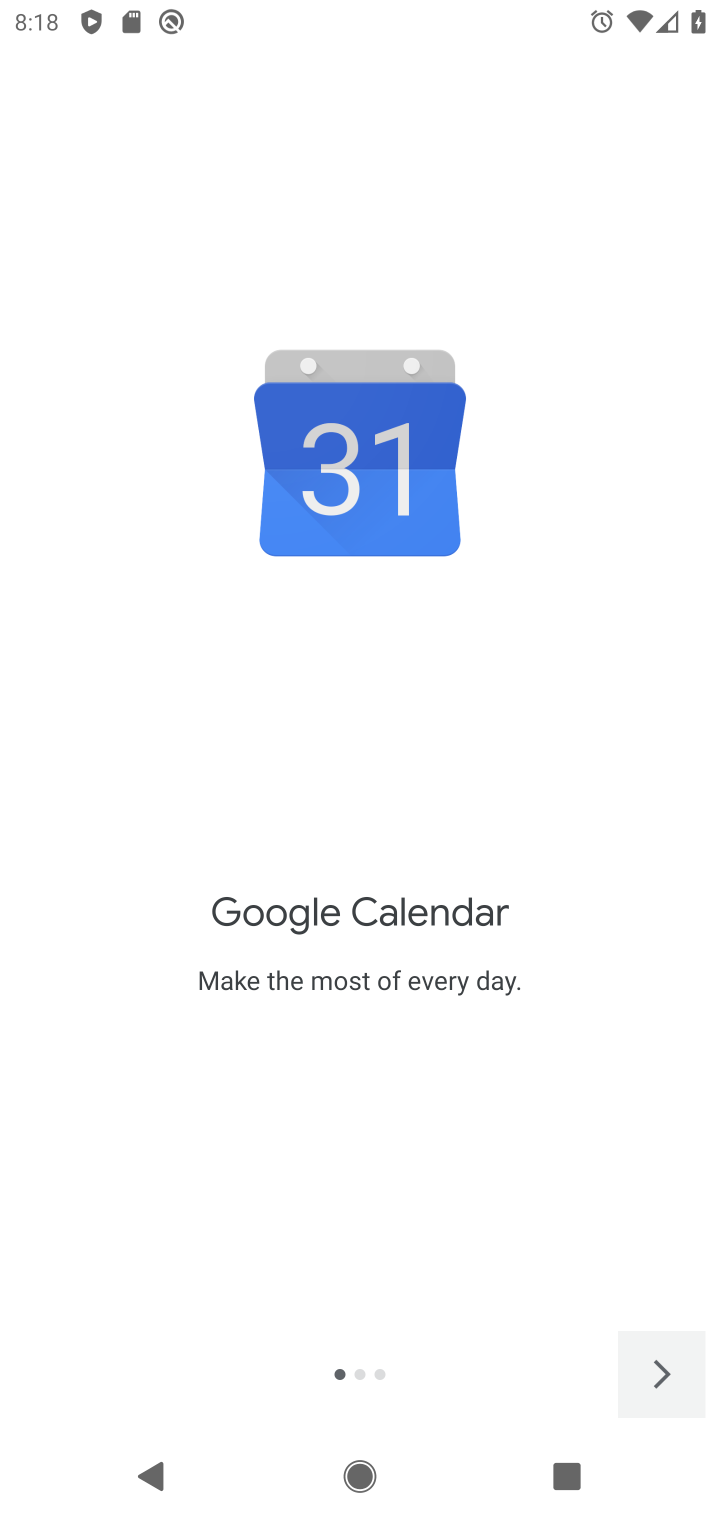
Step 31: click (653, 1362)
Your task to perform on an android device: Open calendar and show me the third week of next month Image 32: 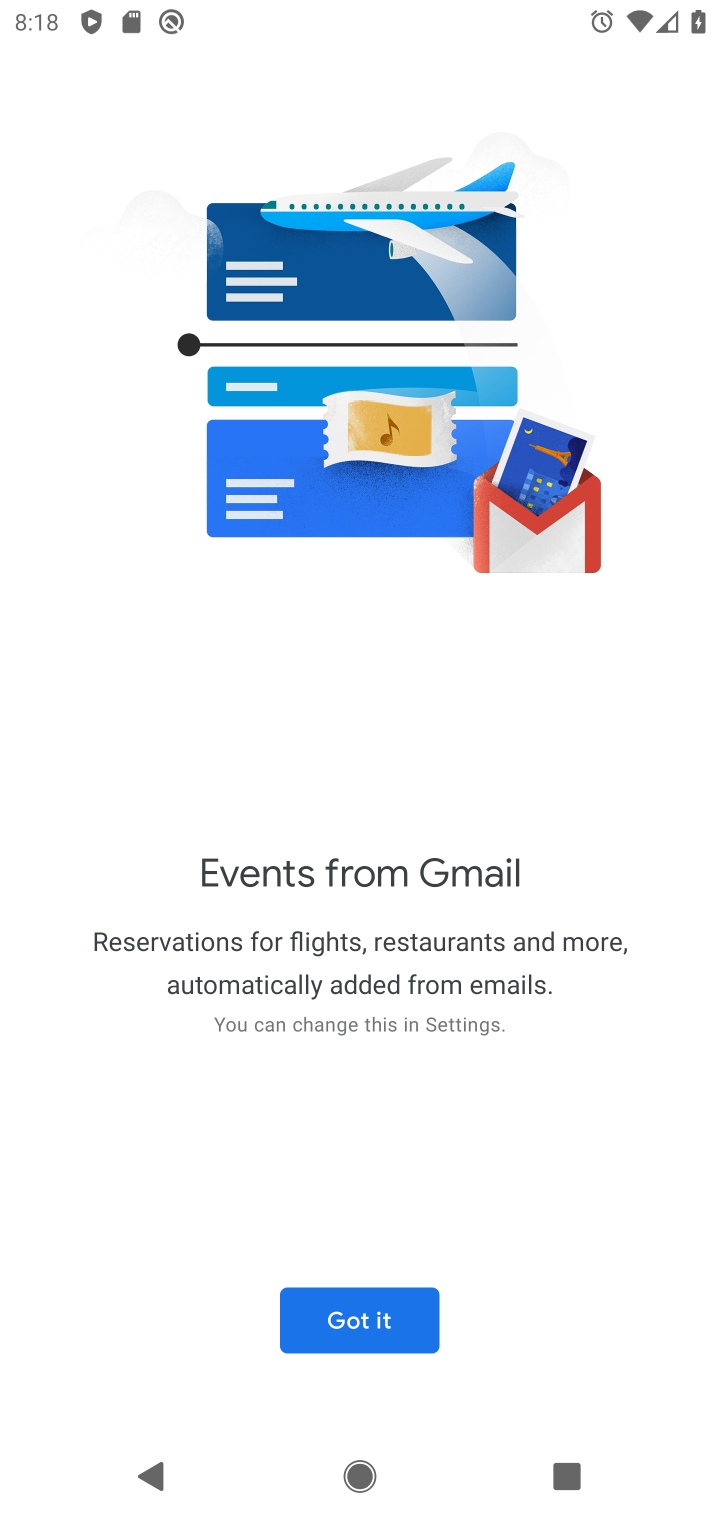
Step 32: click (364, 1305)
Your task to perform on an android device: Open calendar and show me the third week of next month Image 33: 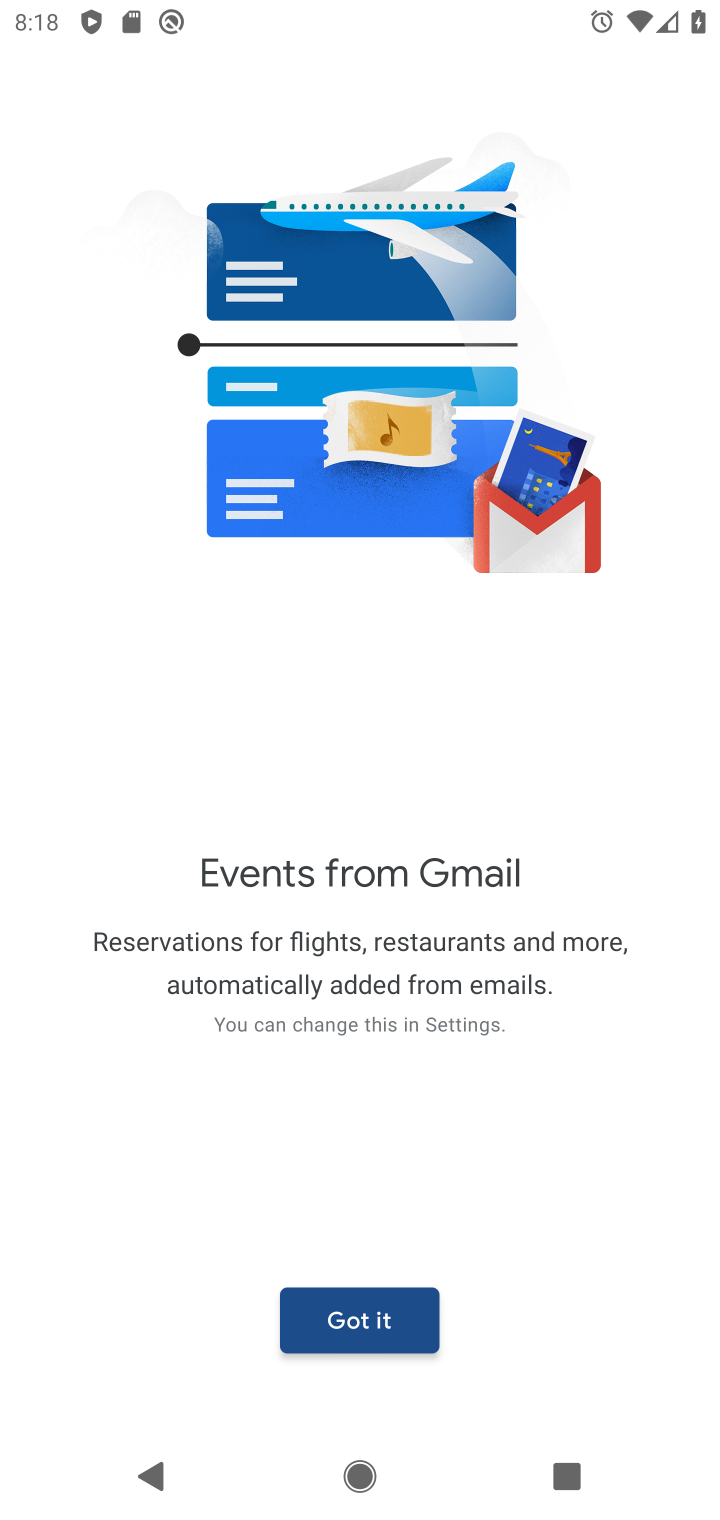
Step 33: click (364, 1305)
Your task to perform on an android device: Open calendar and show me the third week of next month Image 34: 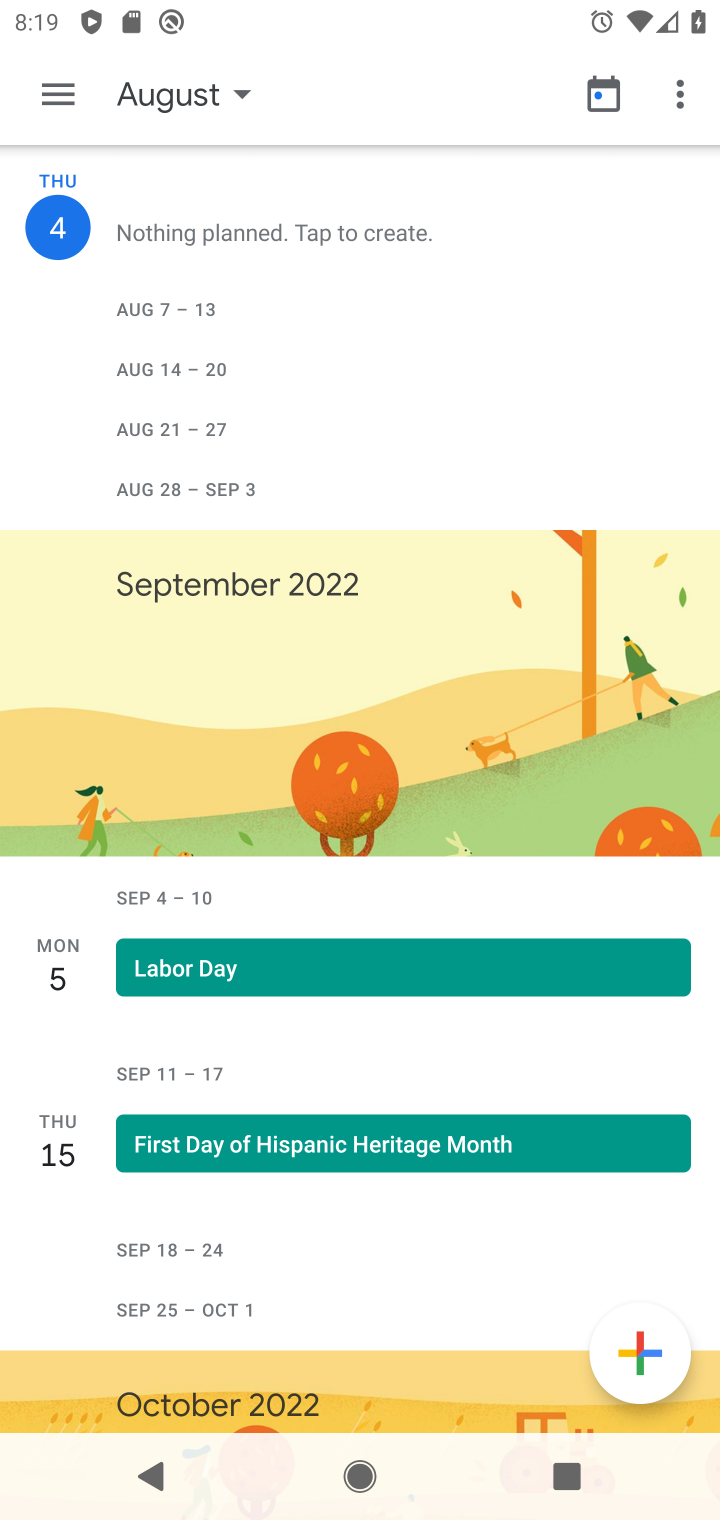
Step 34: click (231, 87)
Your task to perform on an android device: Open calendar and show me the third week of next month Image 35: 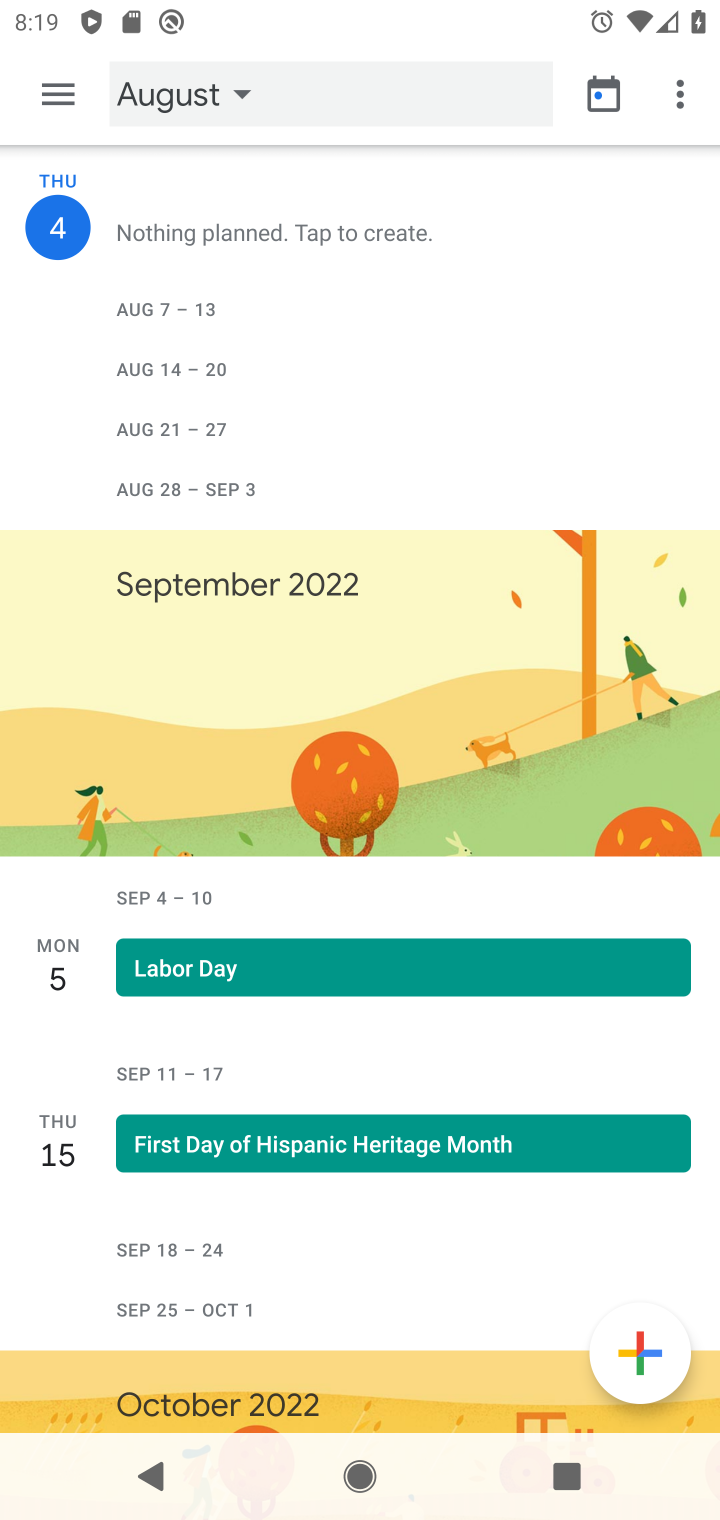
Step 35: click (231, 87)
Your task to perform on an android device: Open calendar and show me the third week of next month Image 36: 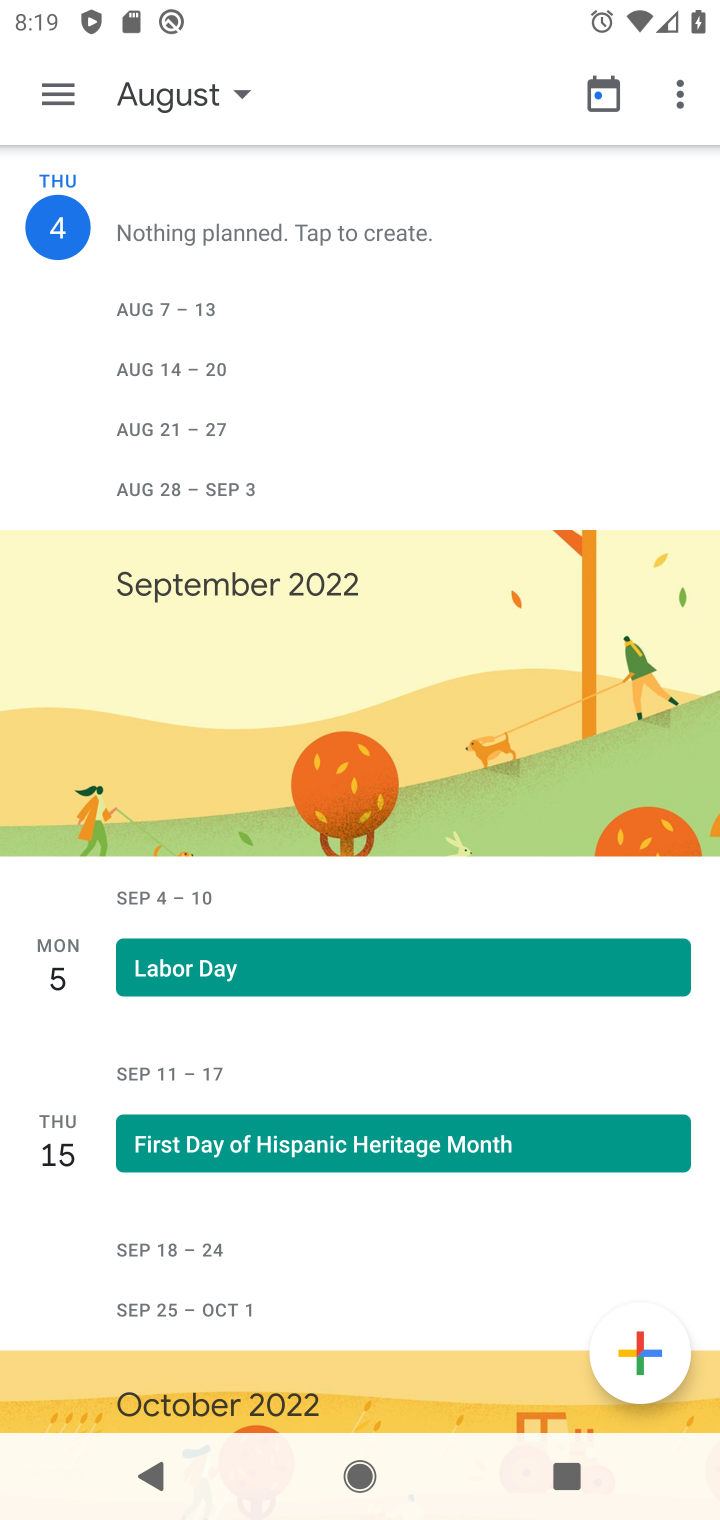
Step 36: click (229, 92)
Your task to perform on an android device: Open calendar and show me the third week of next month Image 37: 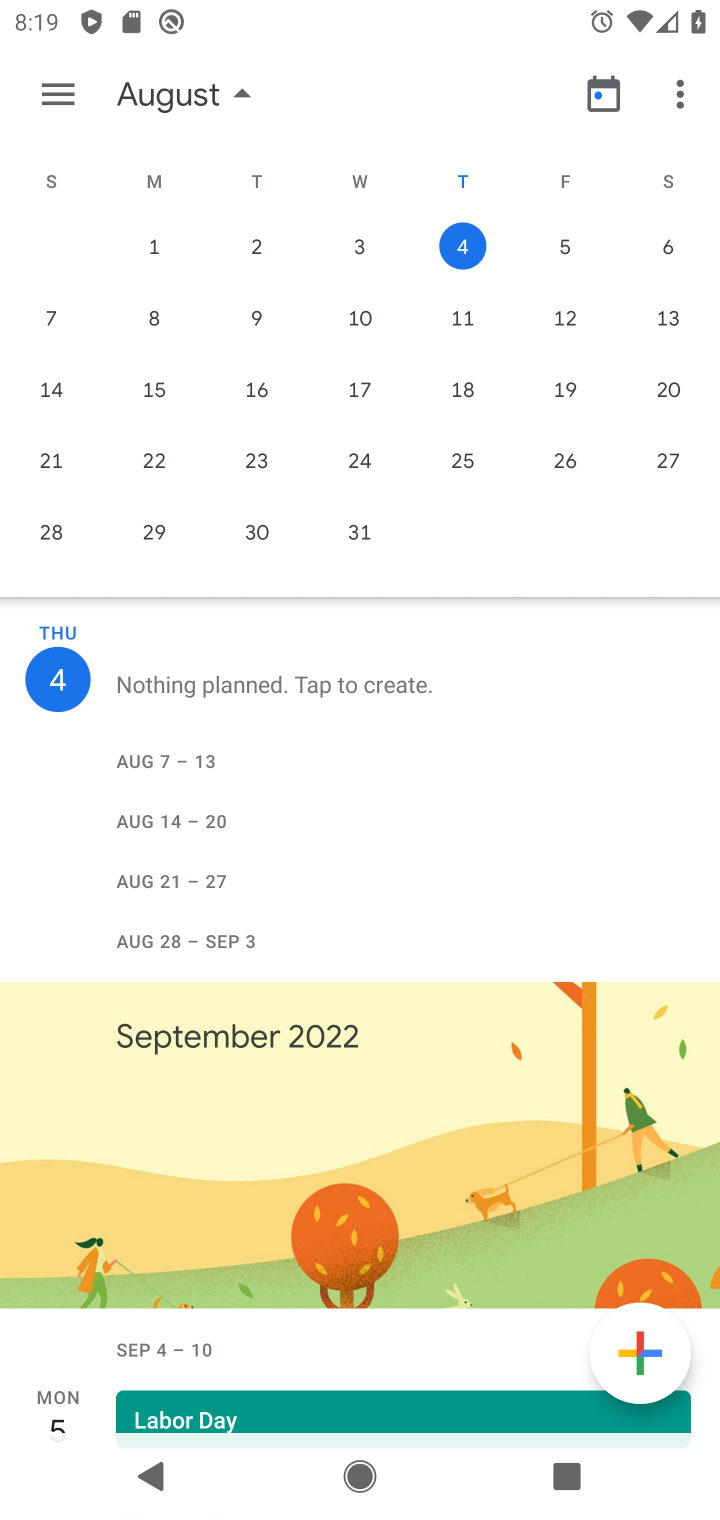
Step 37: drag from (543, 318) to (154, 364)
Your task to perform on an android device: Open calendar and show me the third week of next month Image 38: 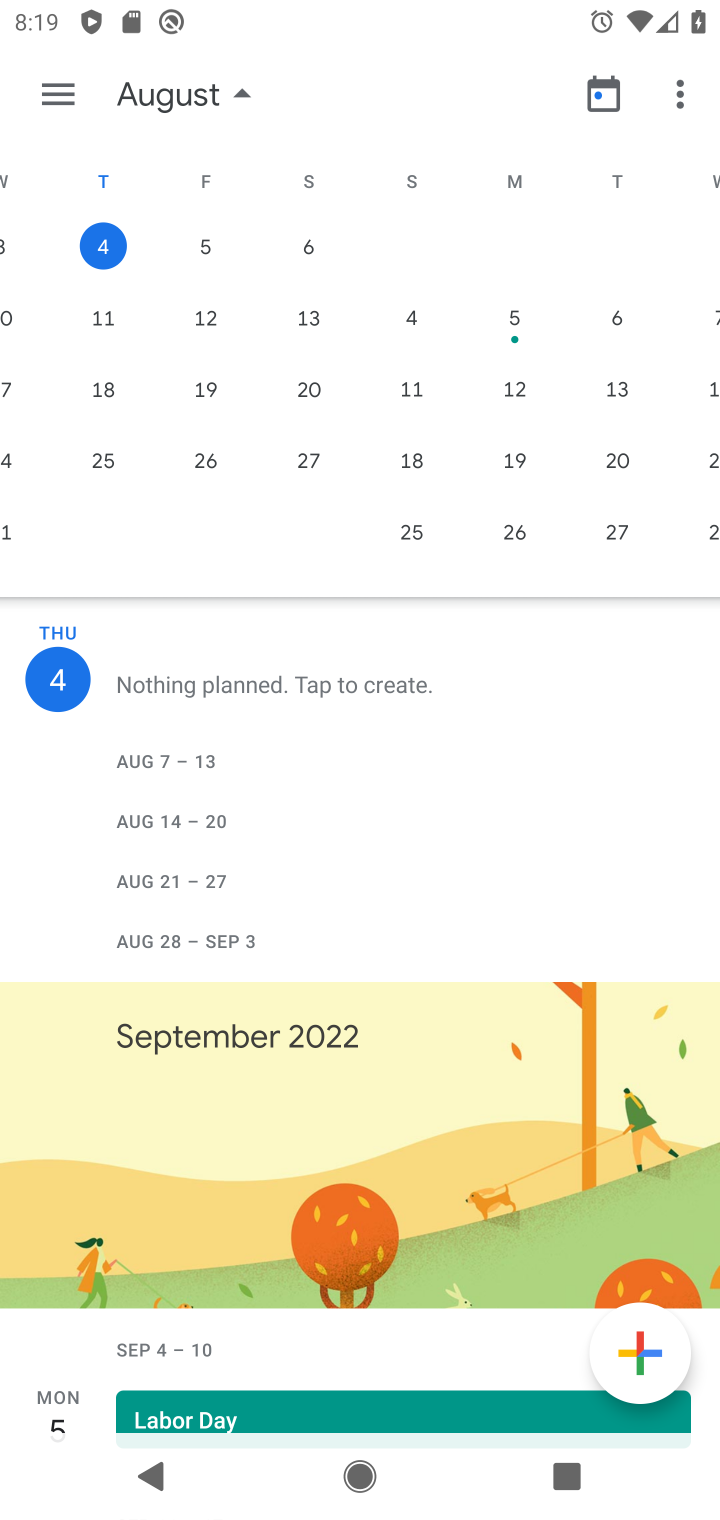
Step 38: drag from (652, 380) to (29, 383)
Your task to perform on an android device: Open calendar and show me the third week of next month Image 39: 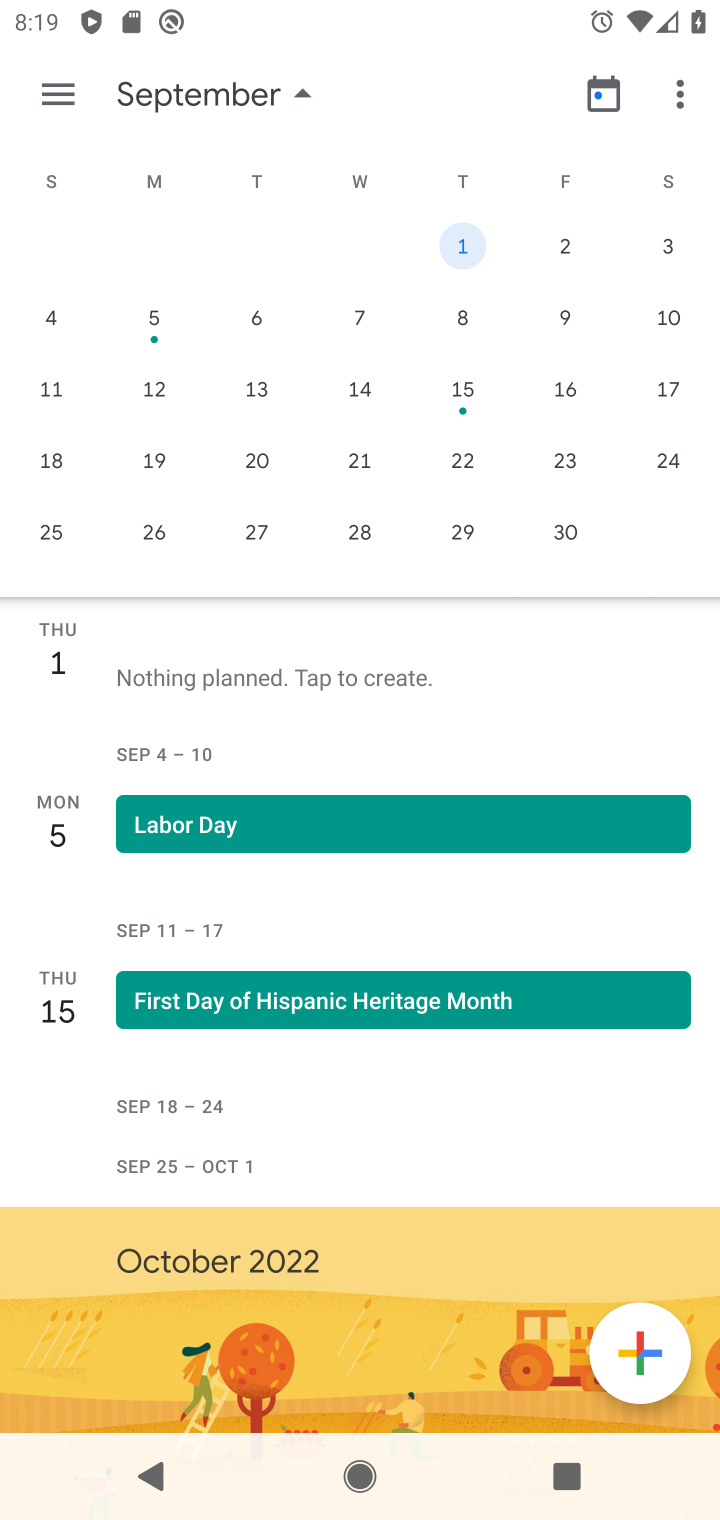
Step 39: click (451, 383)
Your task to perform on an android device: Open calendar and show me the third week of next month Image 40: 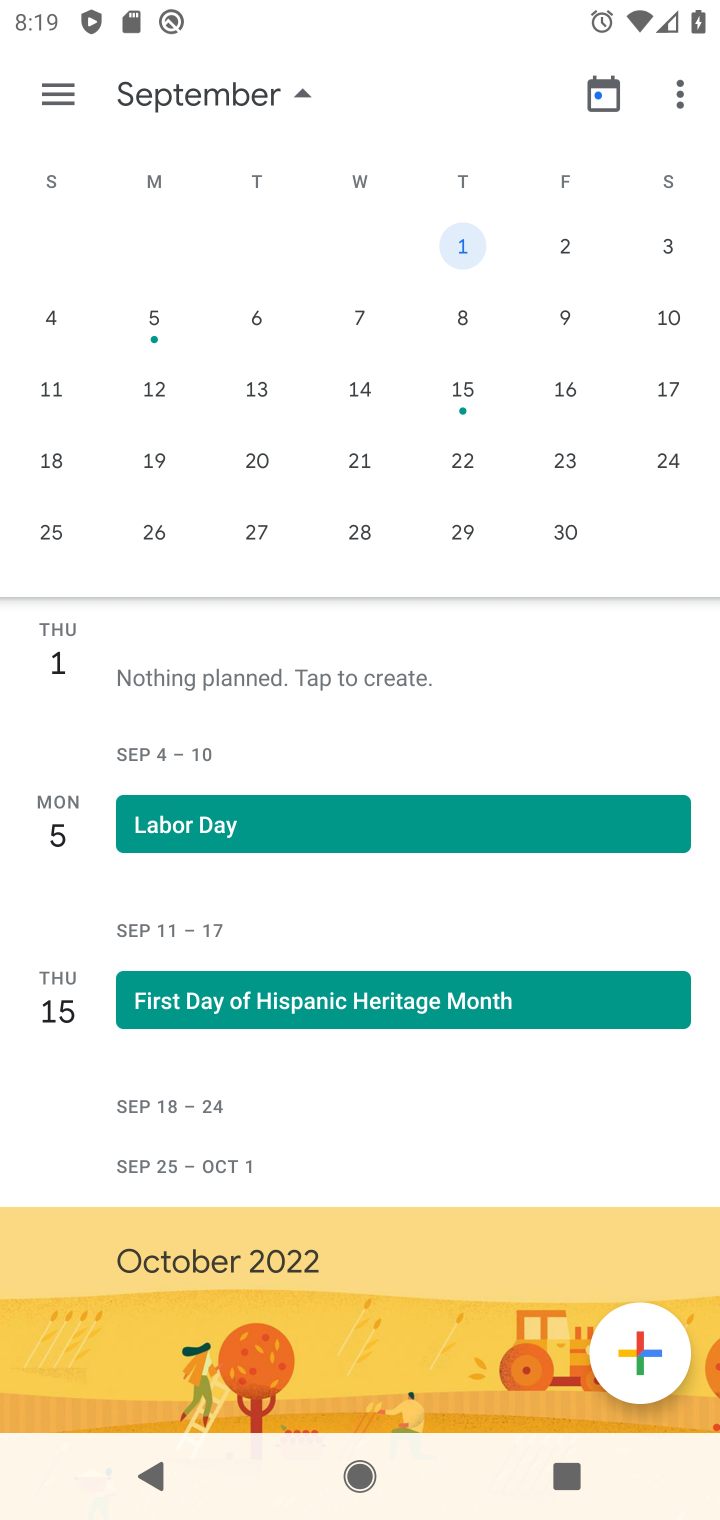
Step 40: click (472, 388)
Your task to perform on an android device: Open calendar and show me the third week of next month Image 41: 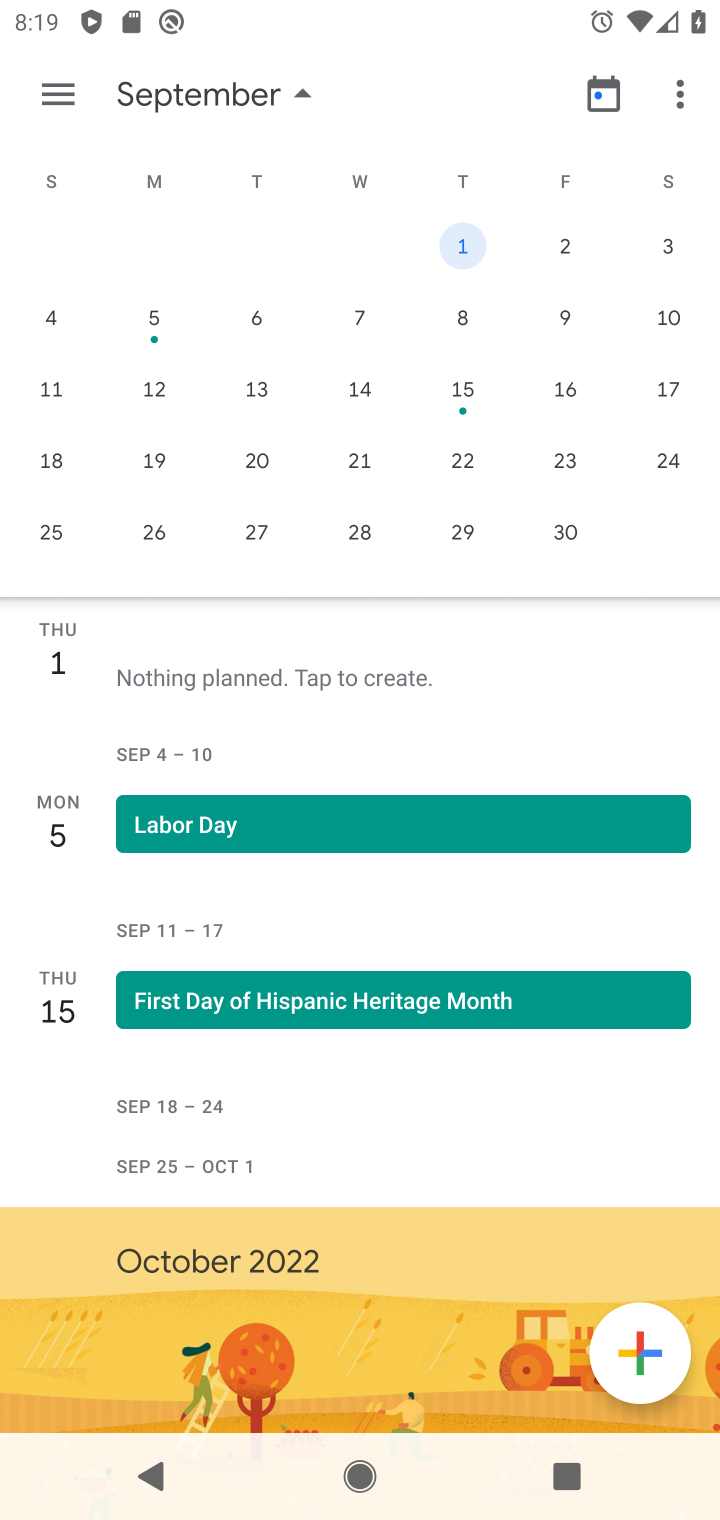
Step 41: click (475, 392)
Your task to perform on an android device: Open calendar and show me the third week of next month Image 42: 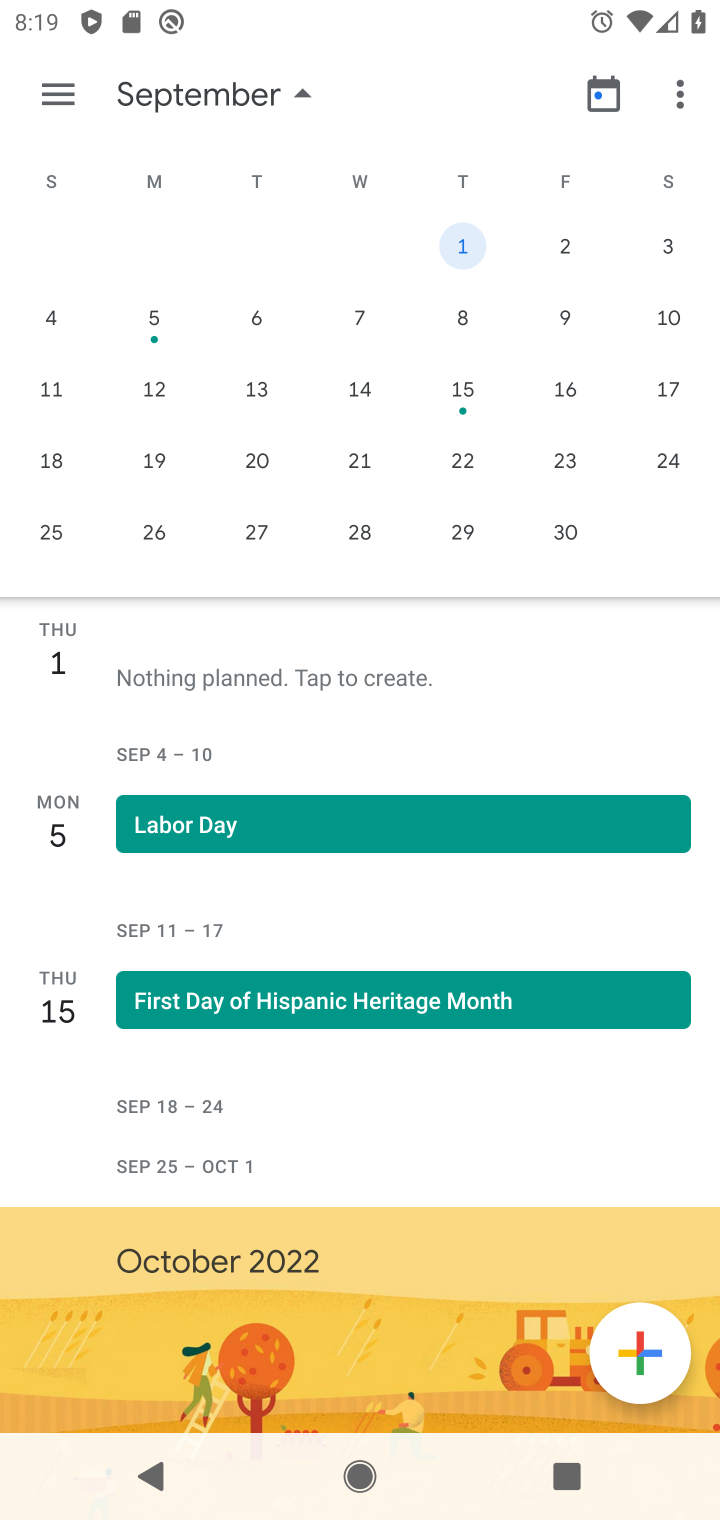
Step 42: click (475, 392)
Your task to perform on an android device: Open calendar and show me the third week of next month Image 43: 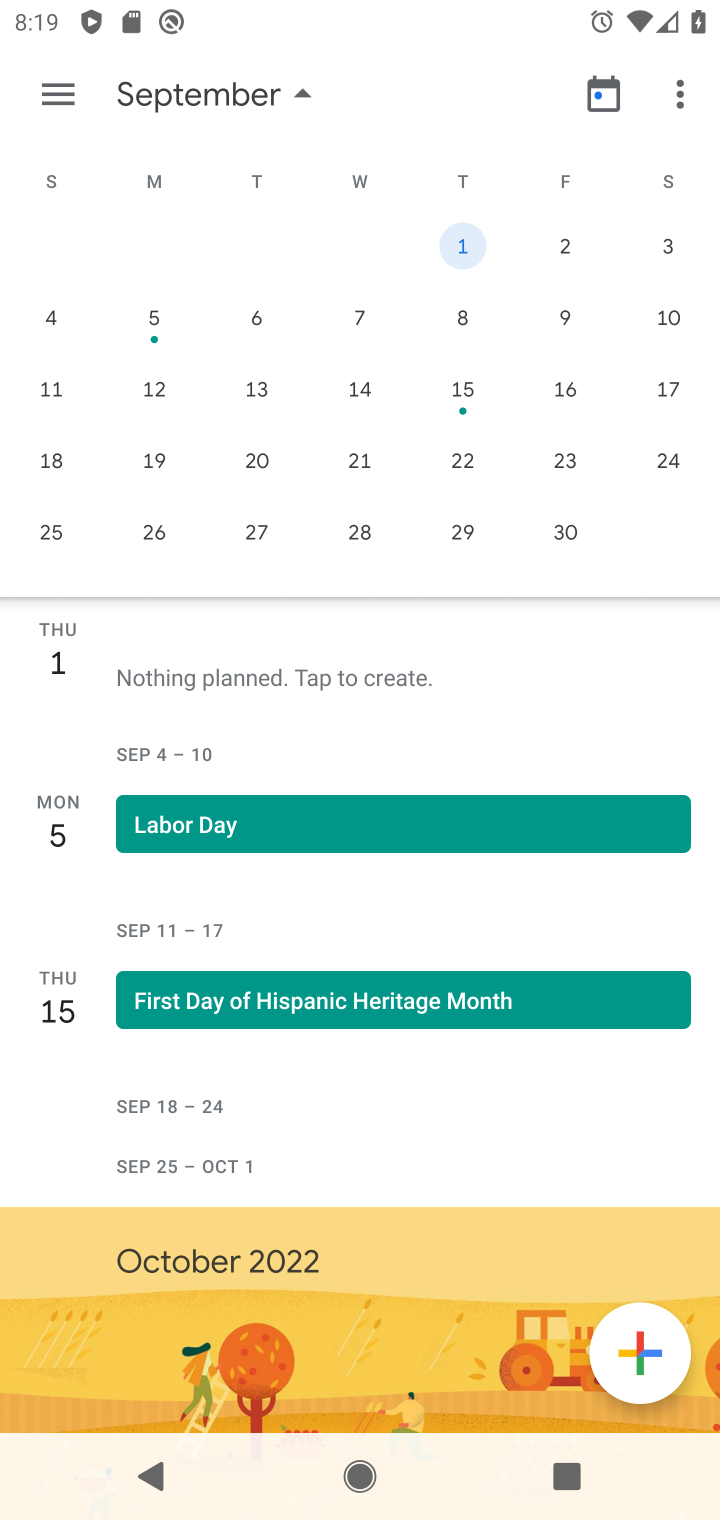
Step 43: click (446, 348)
Your task to perform on an android device: Open calendar and show me the third week of next month Image 44: 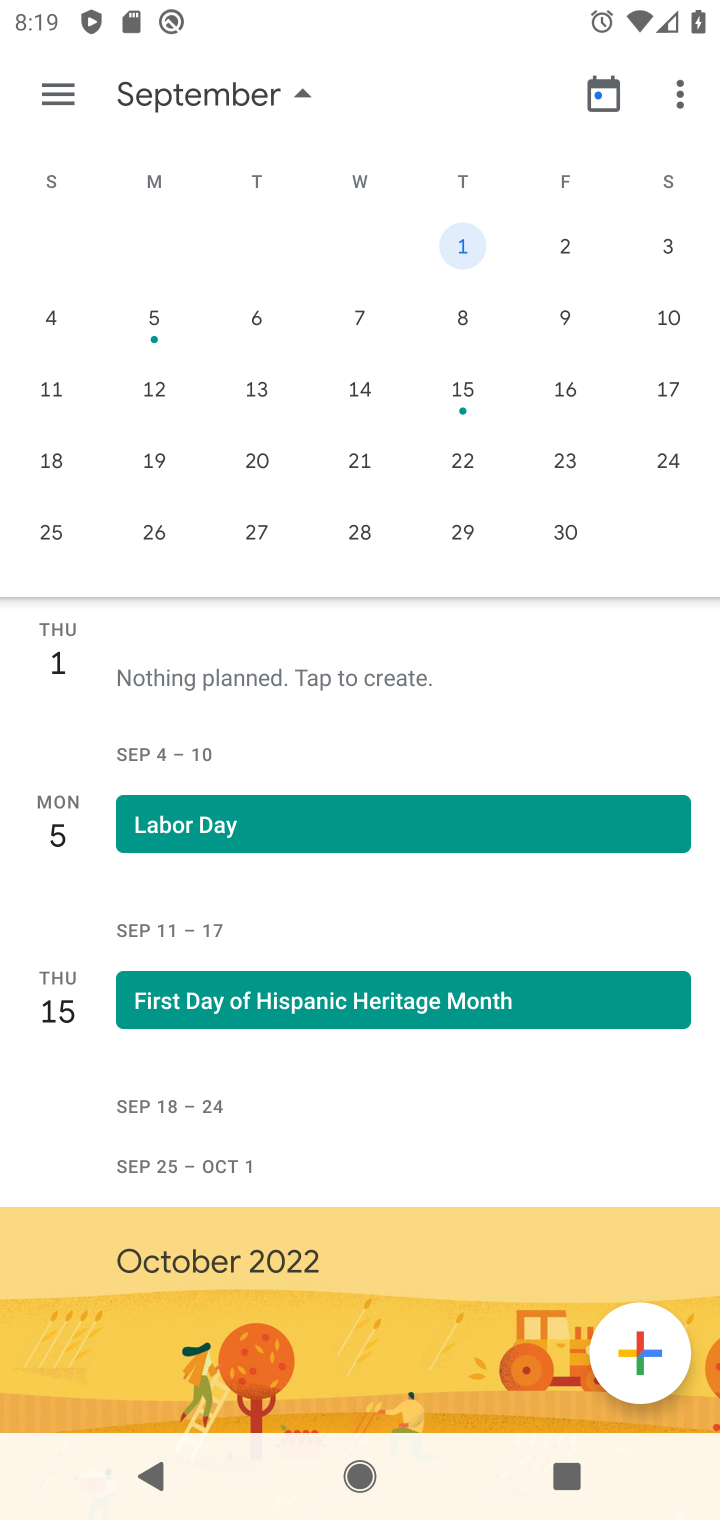
Step 44: click (469, 398)
Your task to perform on an android device: Open calendar and show me the third week of next month Image 45: 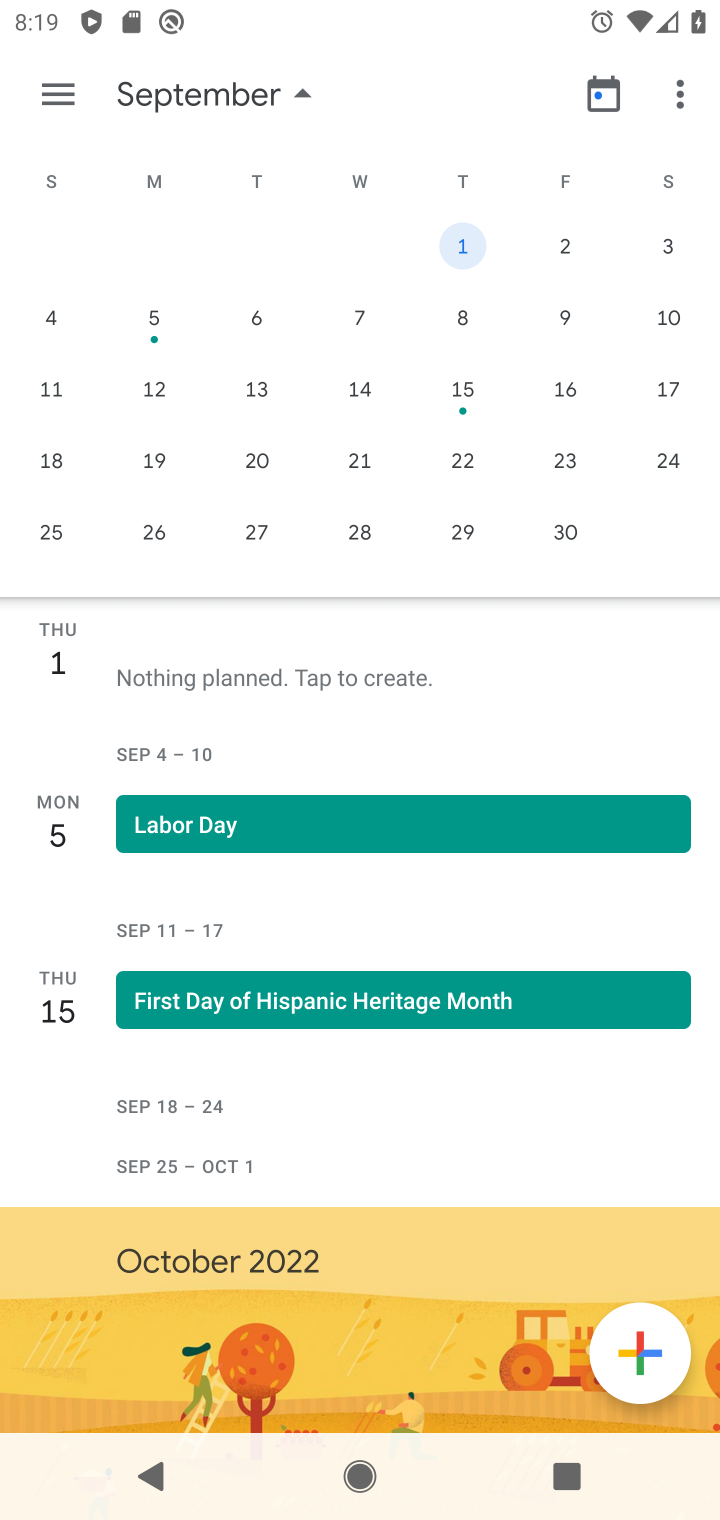
Step 45: click (442, 366)
Your task to perform on an android device: Open calendar and show me the third week of next month Image 46: 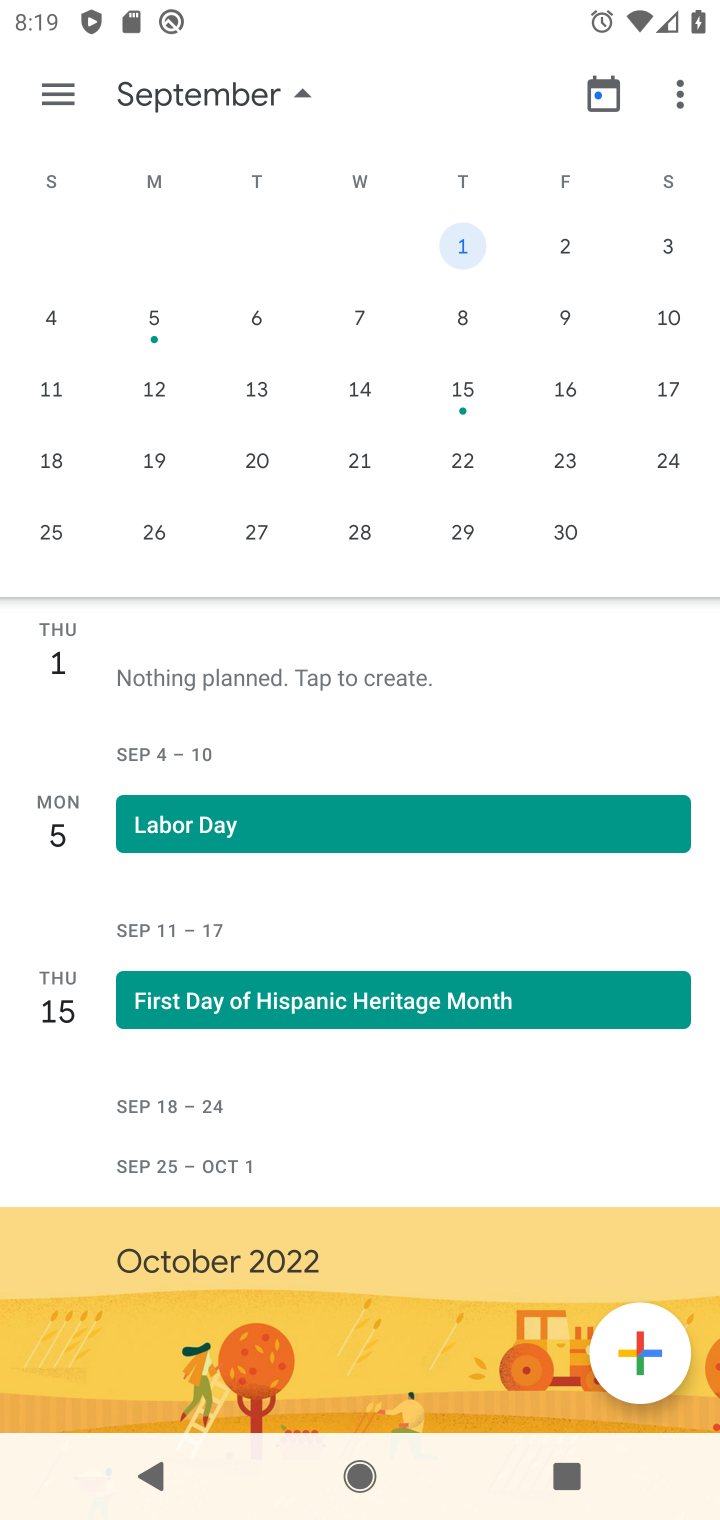
Step 46: click (448, 373)
Your task to perform on an android device: Open calendar and show me the third week of next month Image 47: 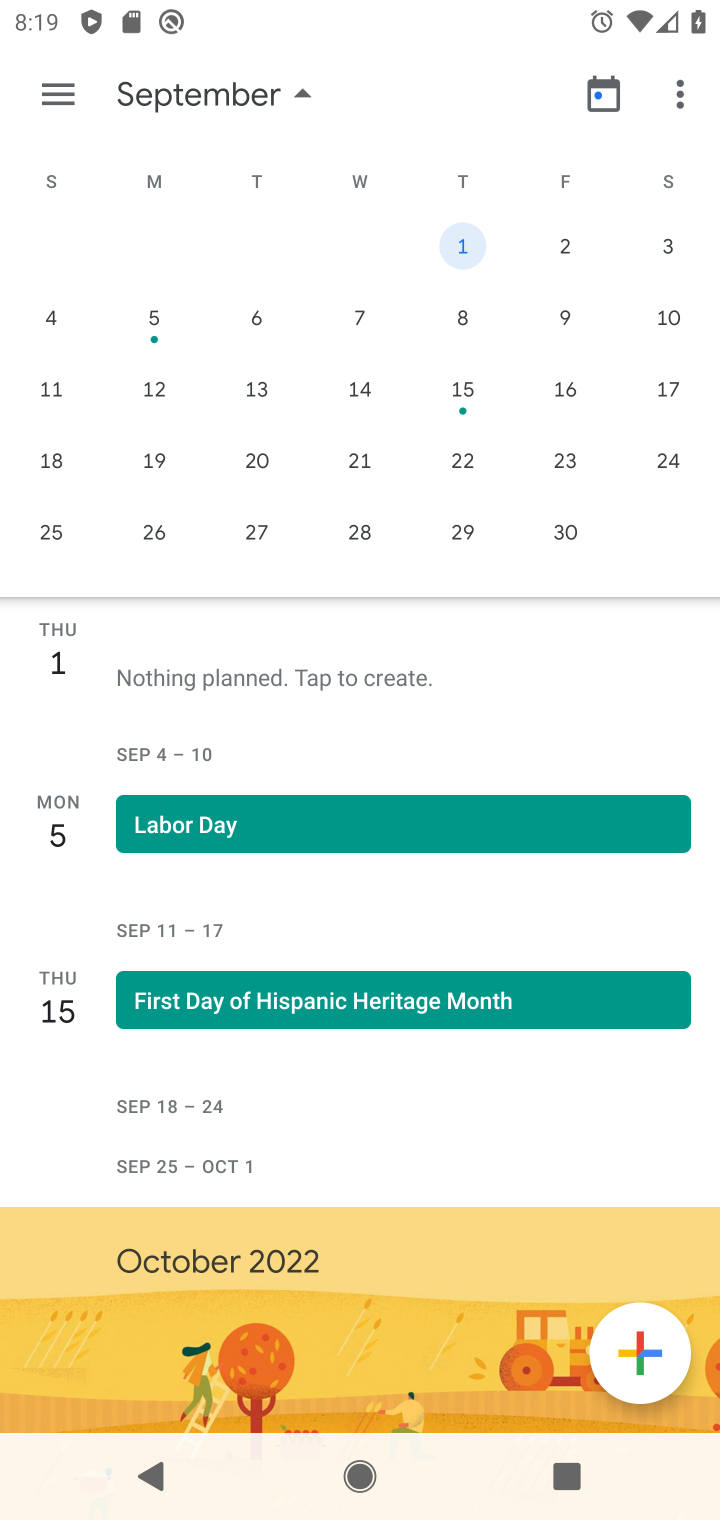
Step 47: task complete